Your task to perform on an android device: How much does a 3 bedroom apartment rent for in Washington DC? Image 0: 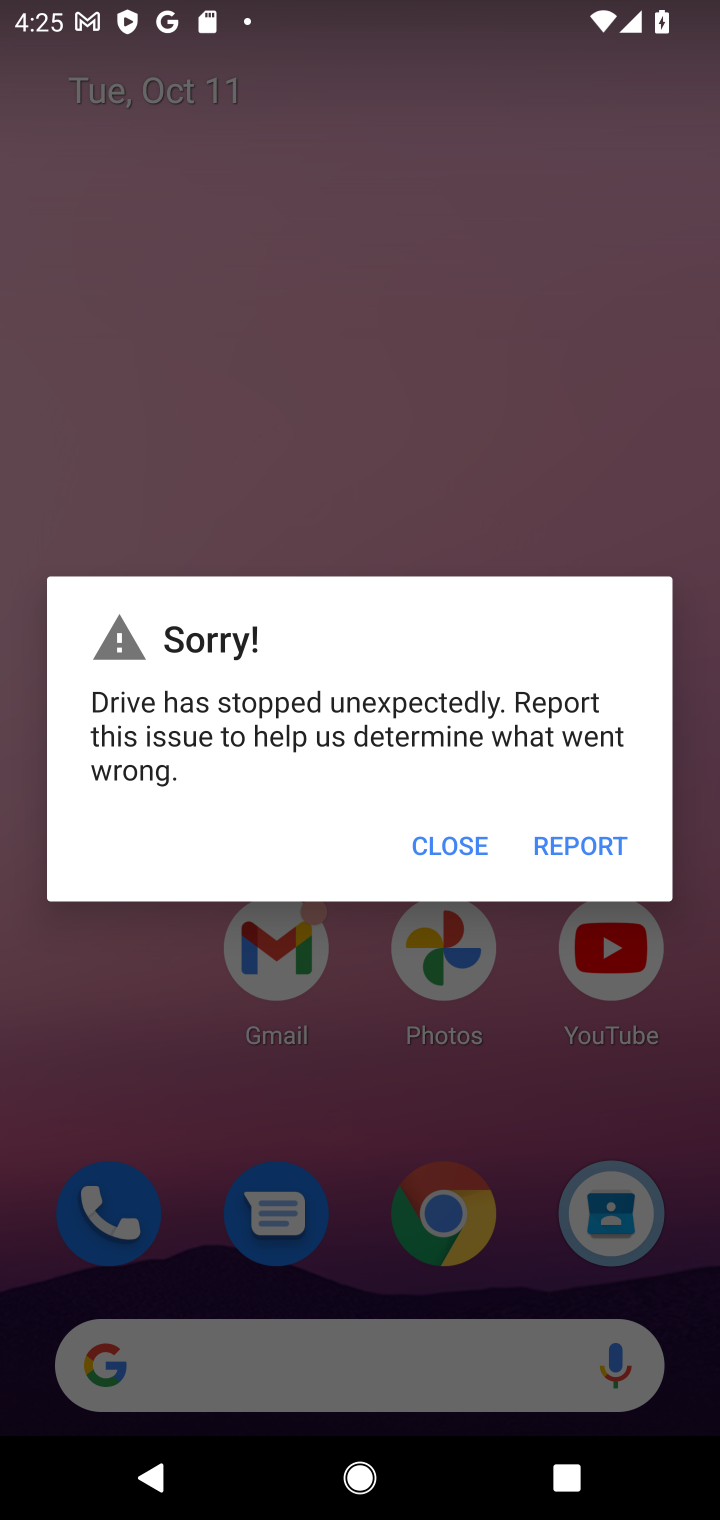
Step 0: press home button
Your task to perform on an android device: How much does a 3 bedroom apartment rent for in Washington DC? Image 1: 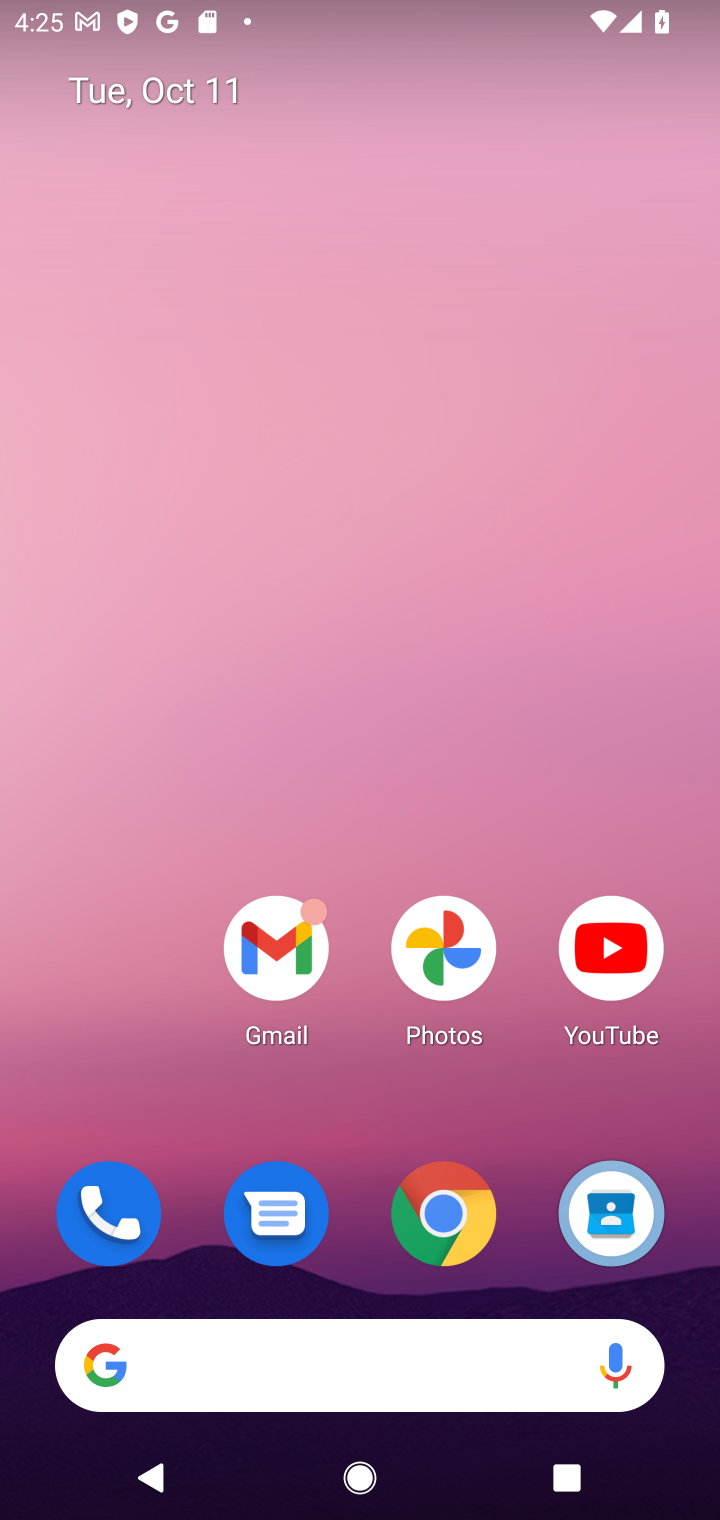
Step 1: click (441, 1221)
Your task to perform on an android device: How much does a 3 bedroom apartment rent for in Washington DC? Image 2: 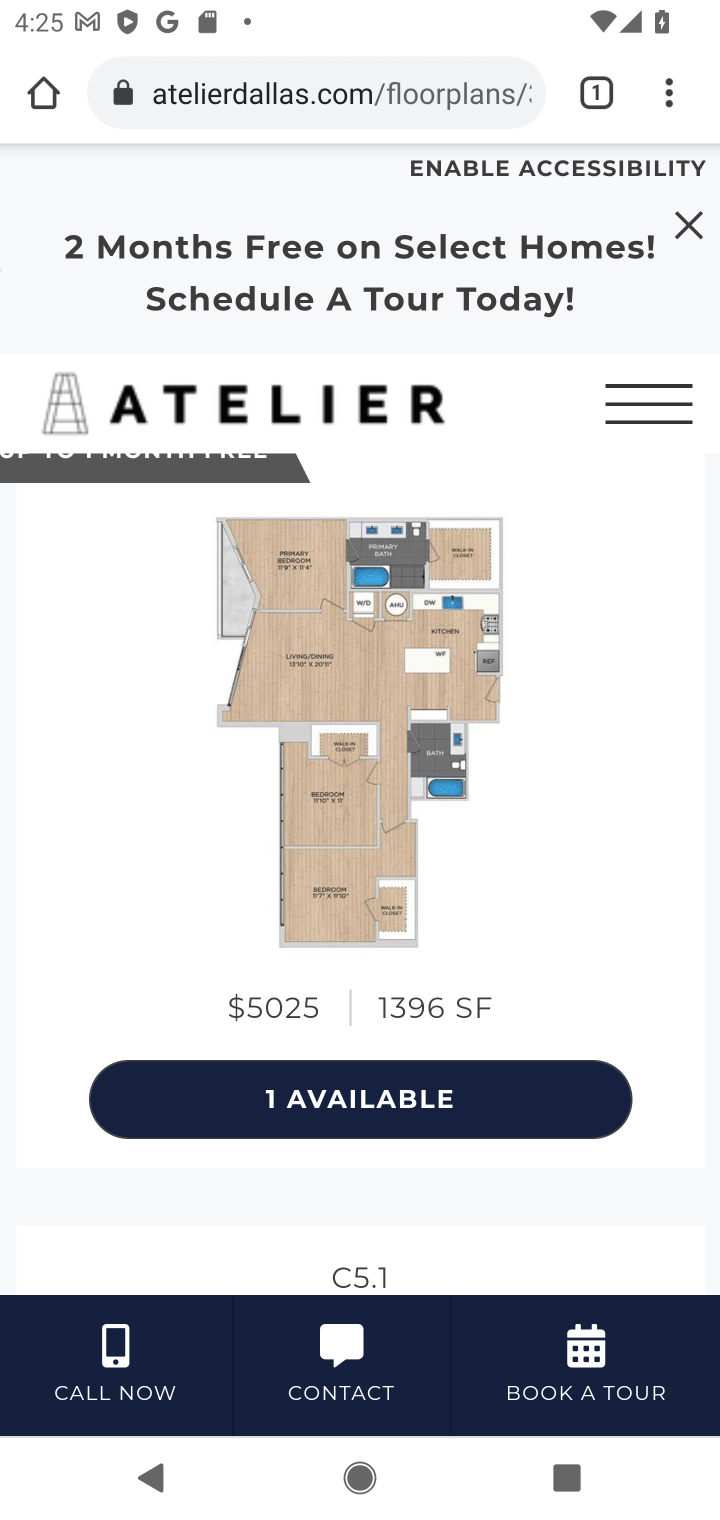
Step 2: click (313, 93)
Your task to perform on an android device: How much does a 3 bedroom apartment rent for in Washington DC? Image 3: 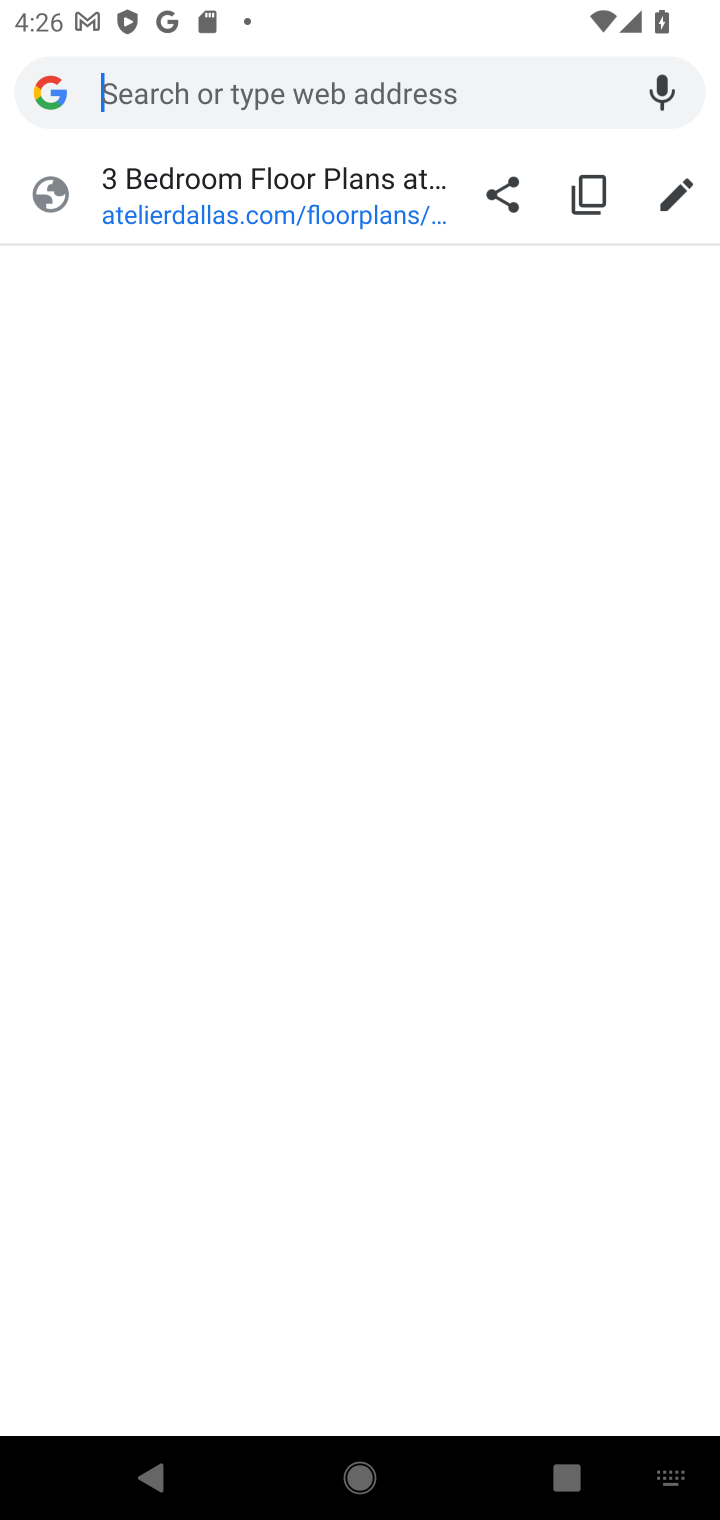
Step 3: type "rent for 3 bedroom apartment in washington dc"
Your task to perform on an android device: How much does a 3 bedroom apartment rent for in Washington DC? Image 4: 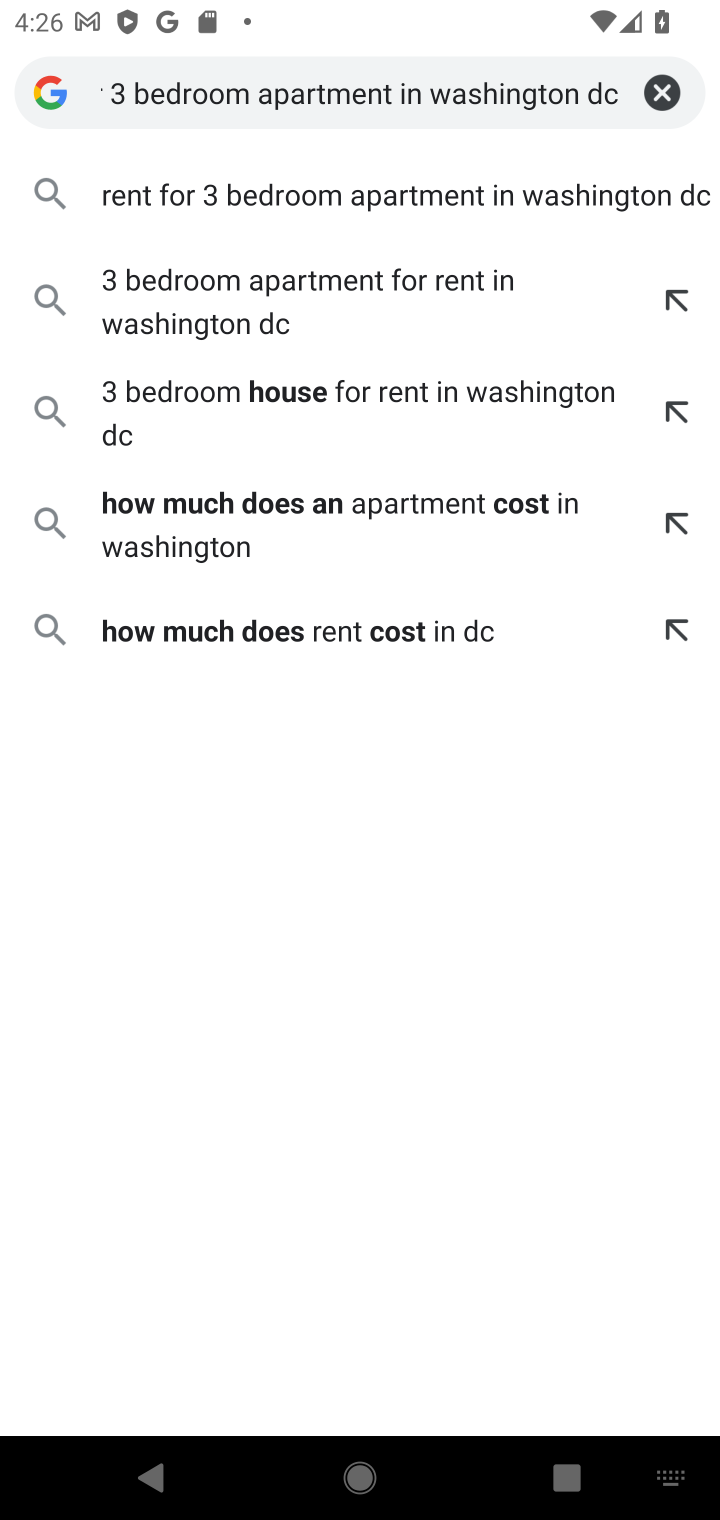
Step 4: click (239, 209)
Your task to perform on an android device: How much does a 3 bedroom apartment rent for in Washington DC? Image 5: 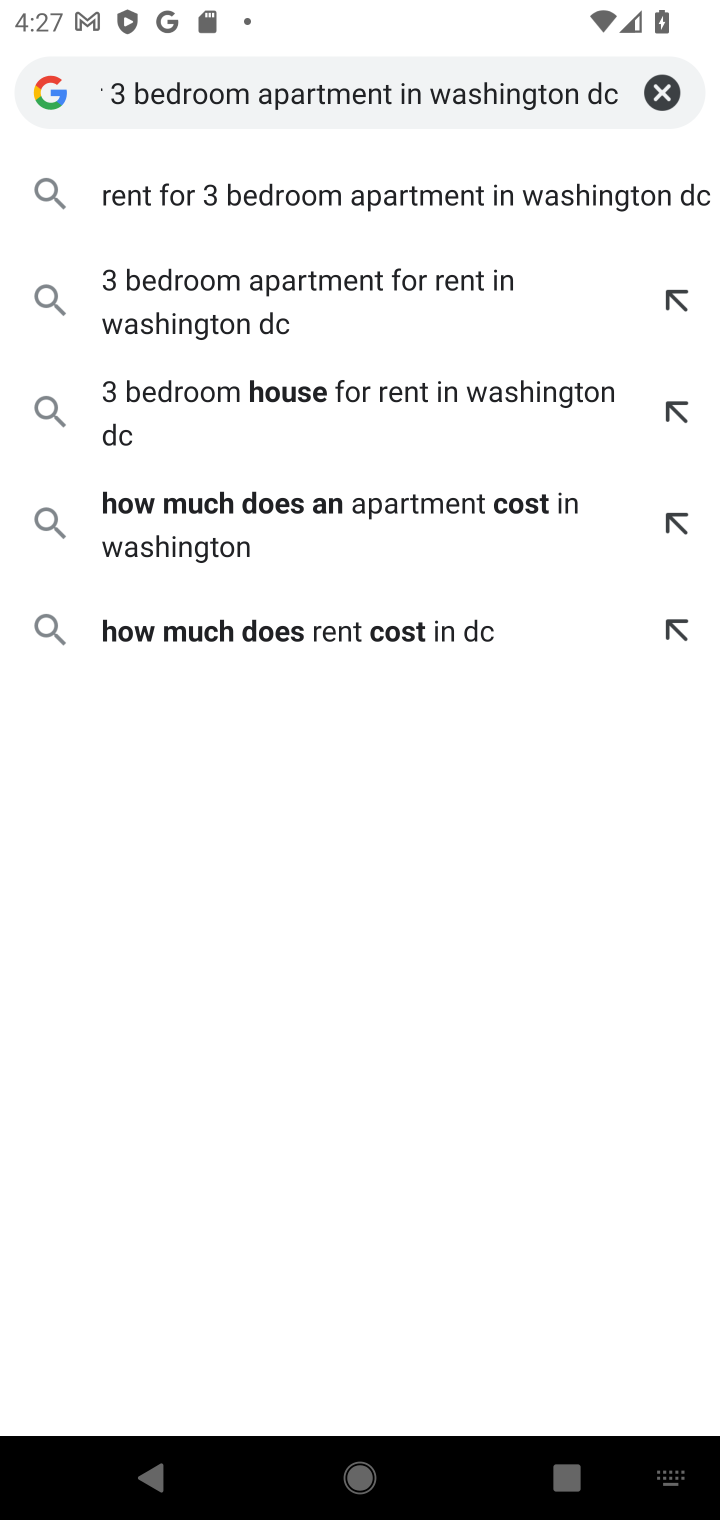
Step 5: click (338, 206)
Your task to perform on an android device: How much does a 3 bedroom apartment rent for in Washington DC? Image 6: 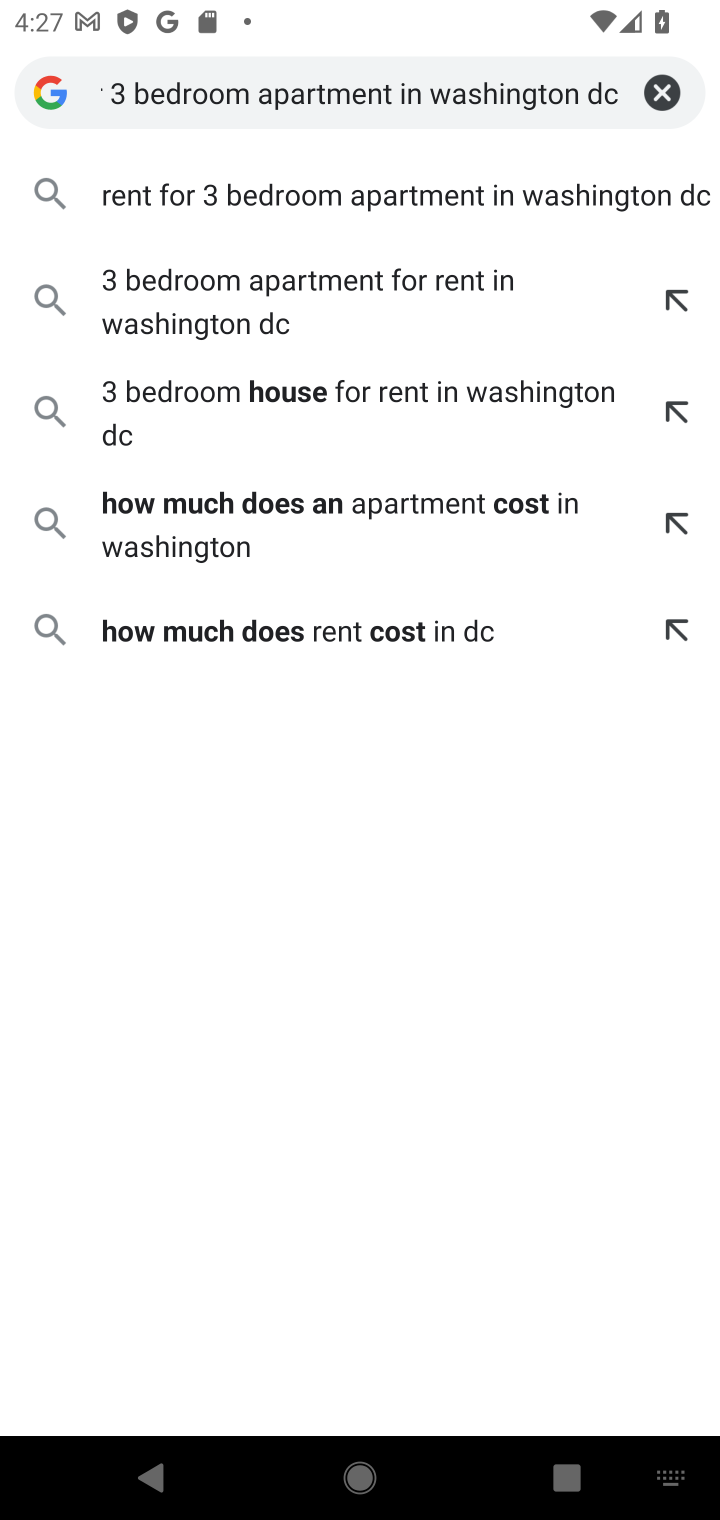
Step 6: click (179, 189)
Your task to perform on an android device: How much does a 3 bedroom apartment rent for in Washington DC? Image 7: 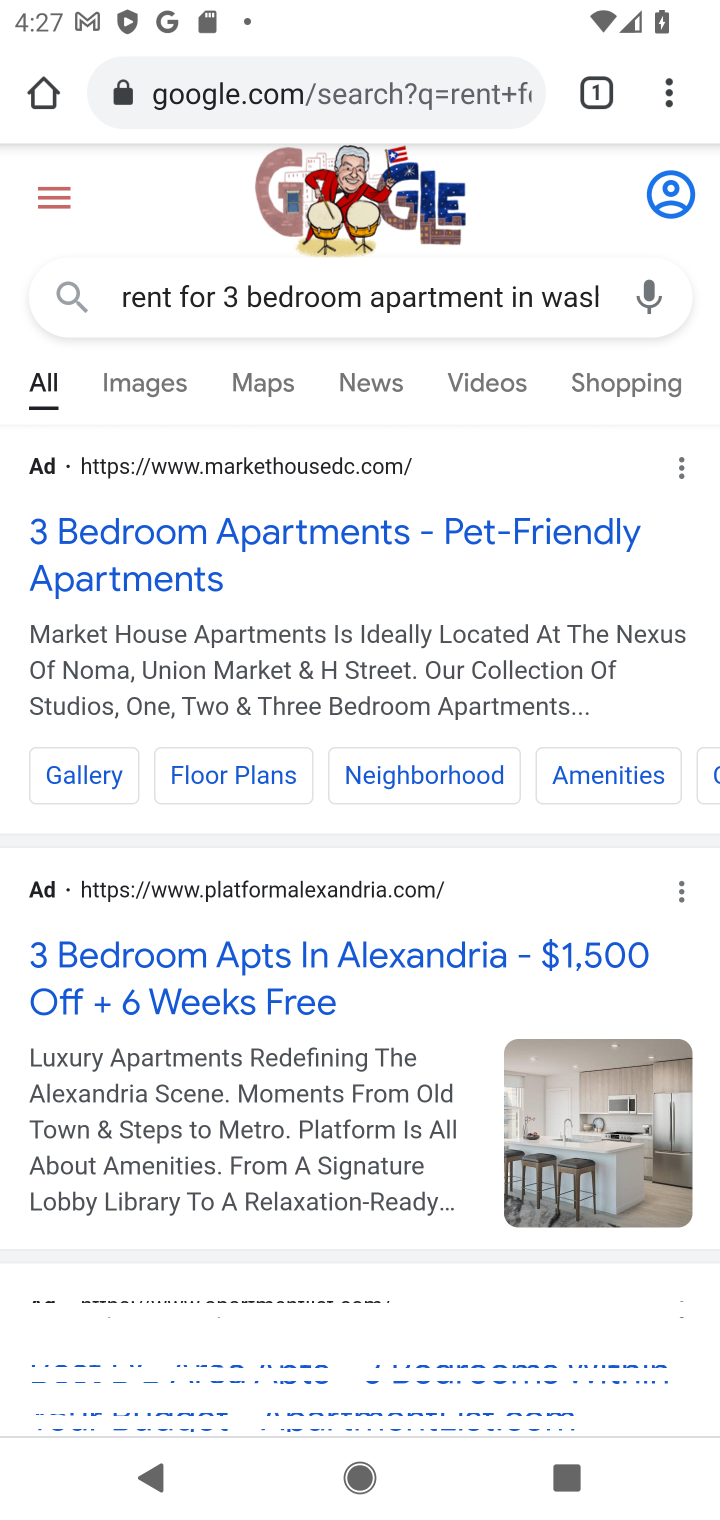
Step 7: click (151, 550)
Your task to perform on an android device: How much does a 3 bedroom apartment rent for in Washington DC? Image 8: 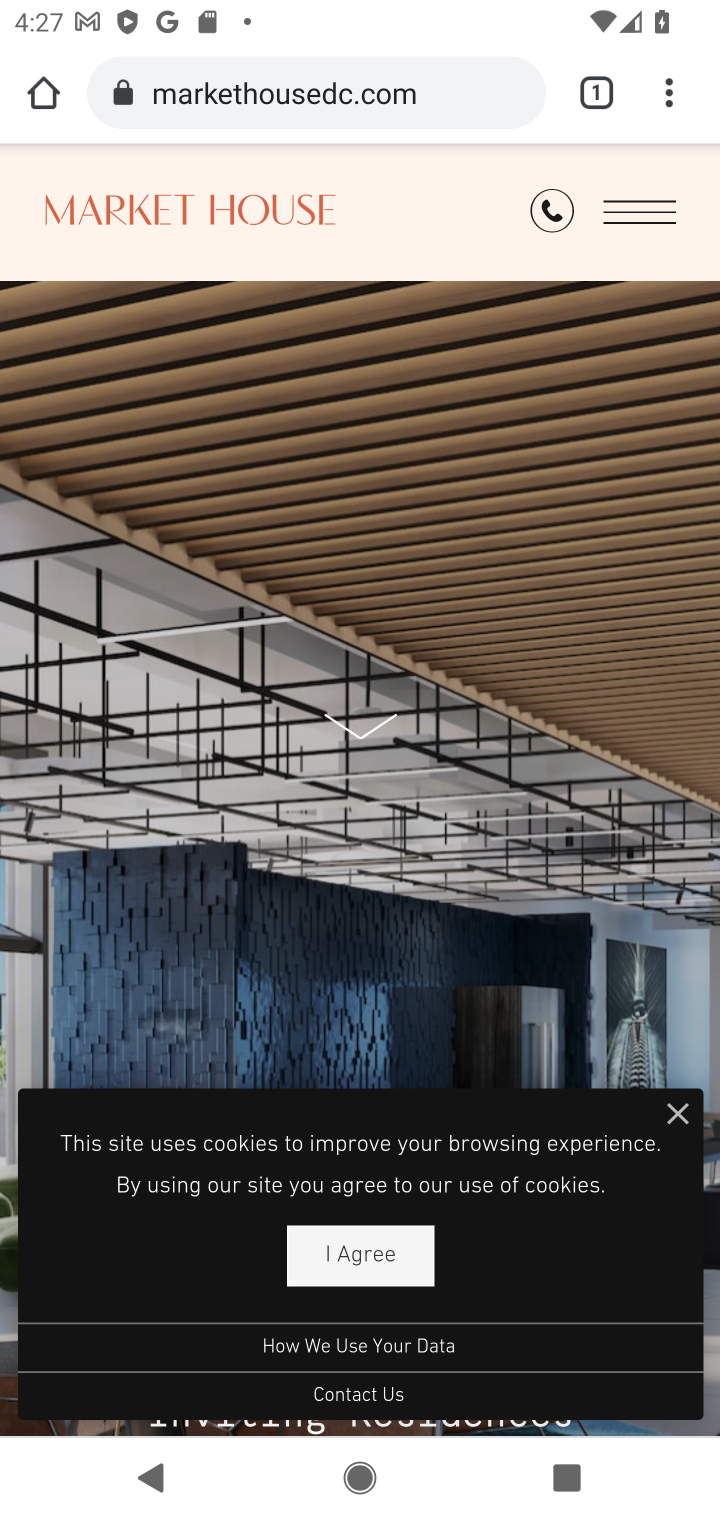
Step 8: click (680, 1108)
Your task to perform on an android device: How much does a 3 bedroom apartment rent for in Washington DC? Image 9: 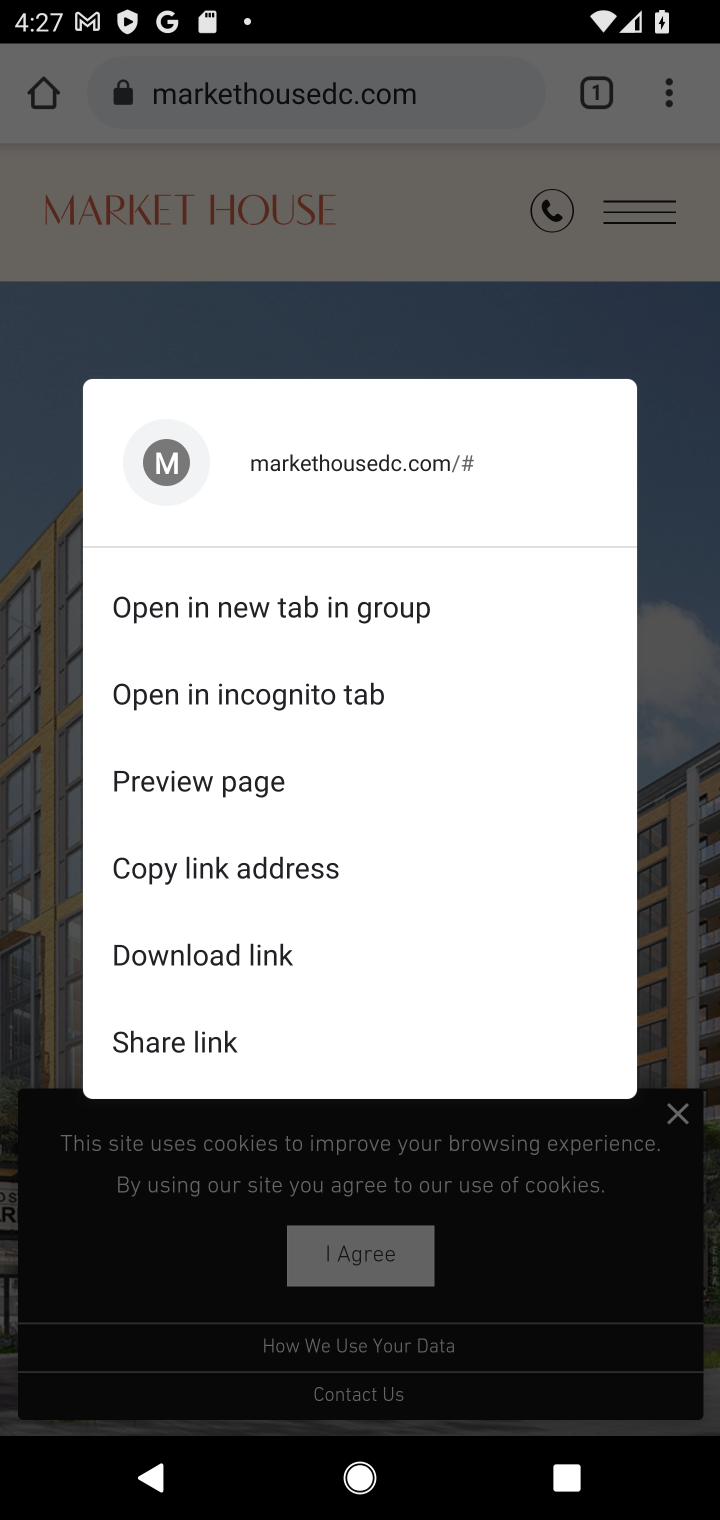
Step 9: click (688, 779)
Your task to perform on an android device: How much does a 3 bedroom apartment rent for in Washington DC? Image 10: 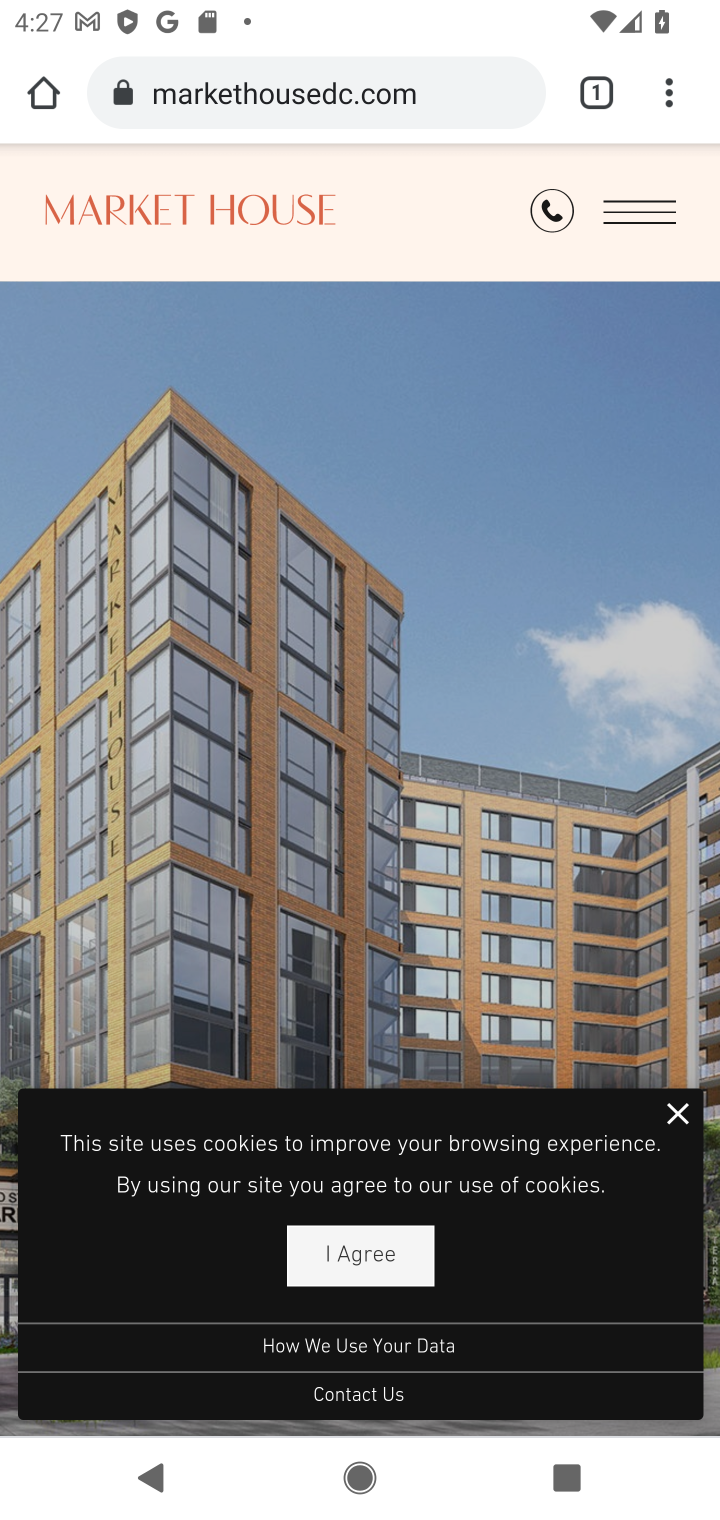
Step 10: drag from (449, 789) to (467, 198)
Your task to perform on an android device: How much does a 3 bedroom apartment rent for in Washington DC? Image 11: 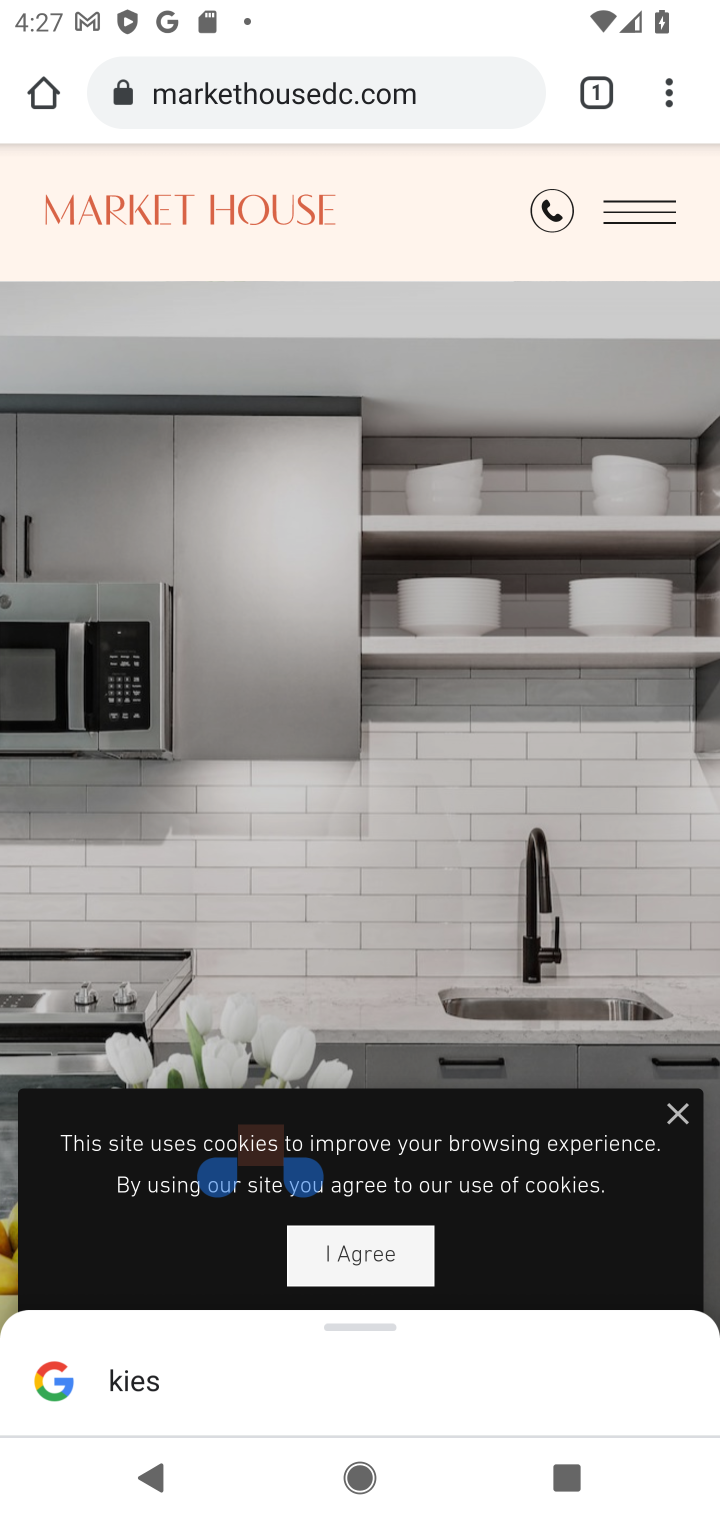
Step 11: drag from (395, 949) to (422, 269)
Your task to perform on an android device: How much does a 3 bedroom apartment rent for in Washington DC? Image 12: 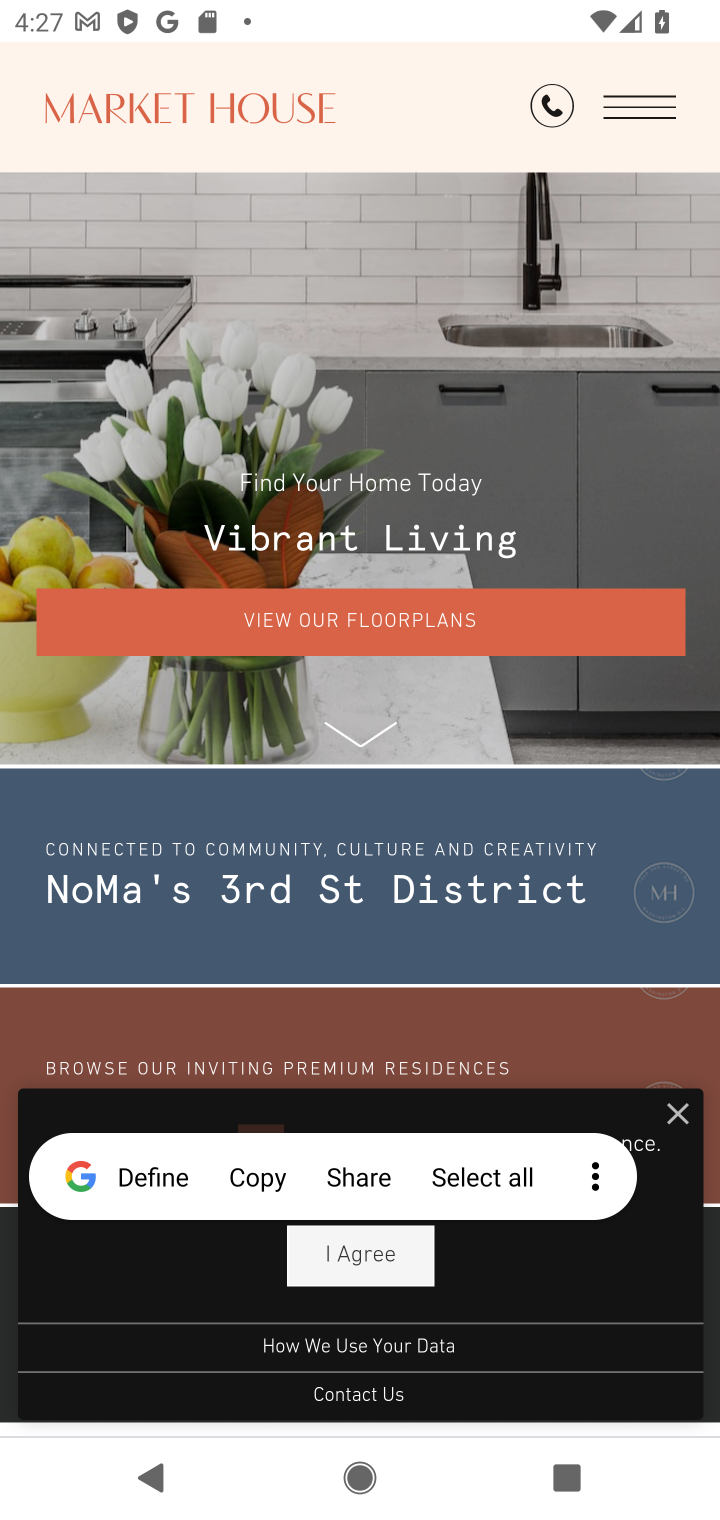
Step 12: drag from (332, 671) to (365, 332)
Your task to perform on an android device: How much does a 3 bedroom apartment rent for in Washington DC? Image 13: 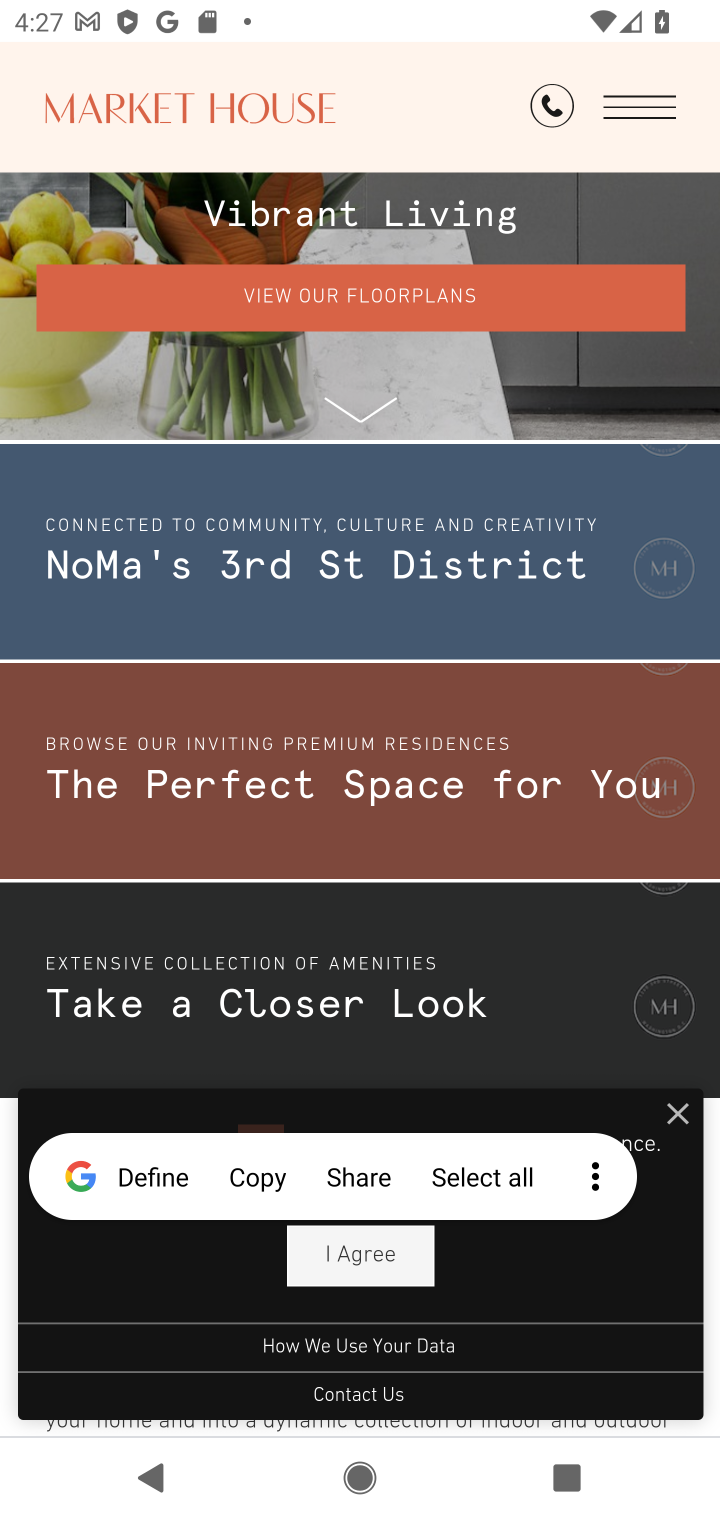
Step 13: drag from (361, 762) to (368, 261)
Your task to perform on an android device: How much does a 3 bedroom apartment rent for in Washington DC? Image 14: 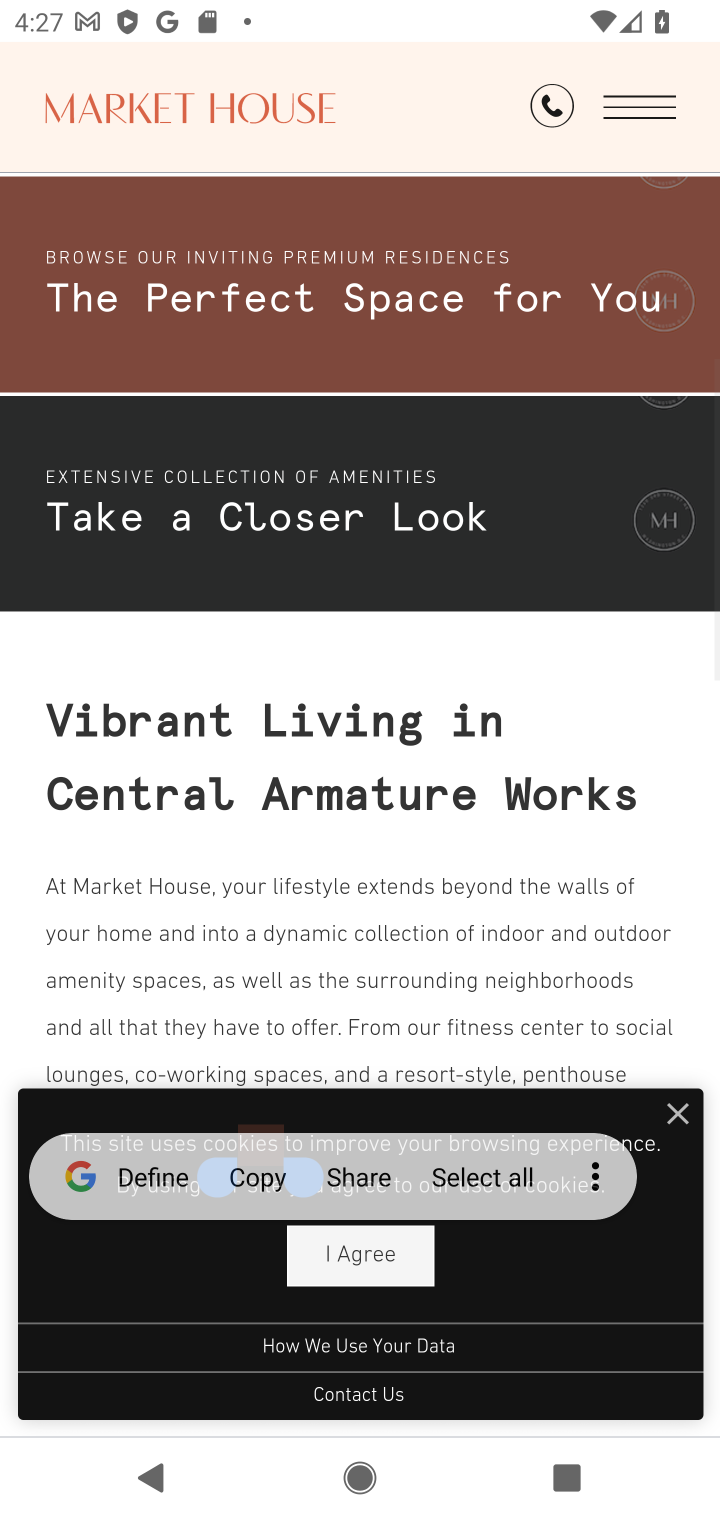
Step 14: drag from (290, 892) to (333, 282)
Your task to perform on an android device: How much does a 3 bedroom apartment rent for in Washington DC? Image 15: 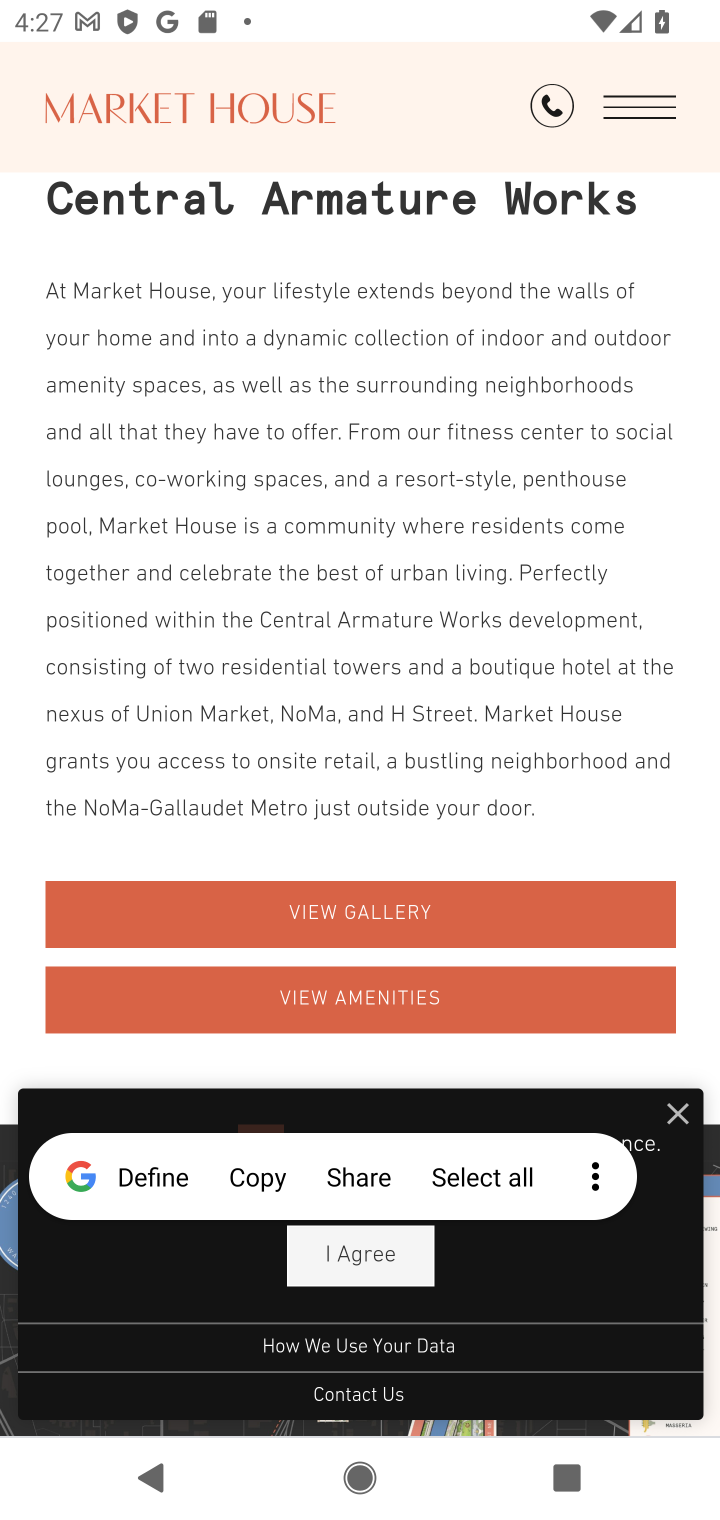
Step 15: drag from (297, 899) to (345, 362)
Your task to perform on an android device: How much does a 3 bedroom apartment rent for in Washington DC? Image 16: 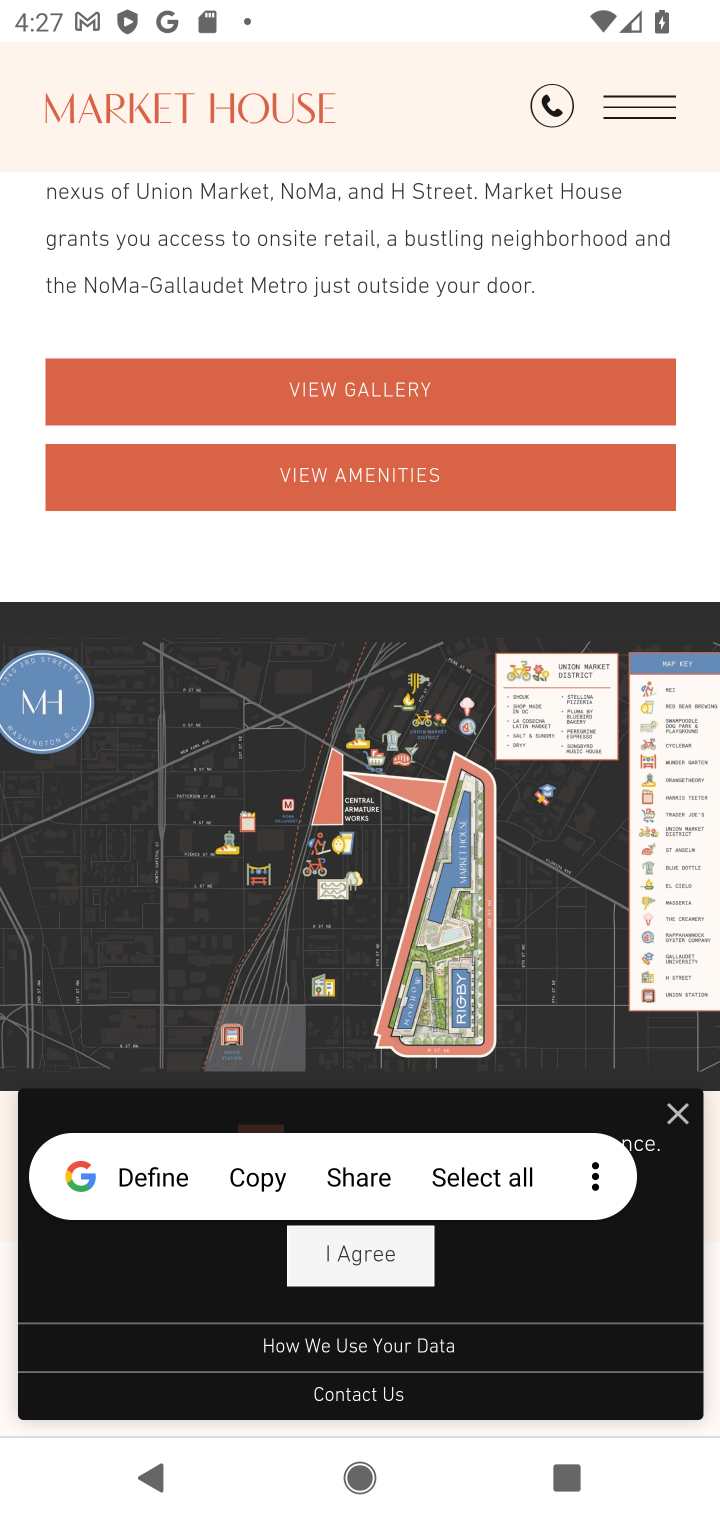
Step 16: drag from (266, 839) to (294, 352)
Your task to perform on an android device: How much does a 3 bedroom apartment rent for in Washington DC? Image 17: 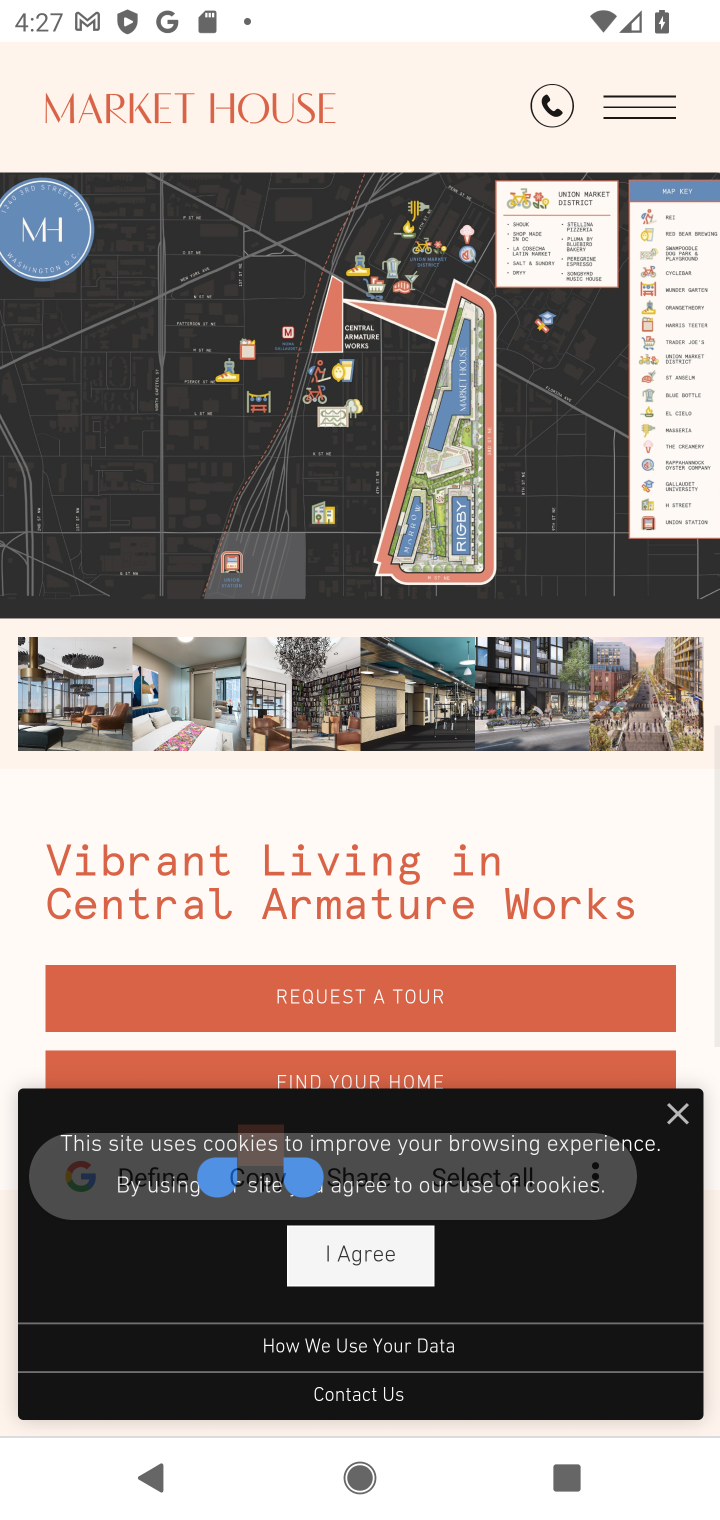
Step 17: drag from (319, 845) to (373, 370)
Your task to perform on an android device: How much does a 3 bedroom apartment rent for in Washington DC? Image 18: 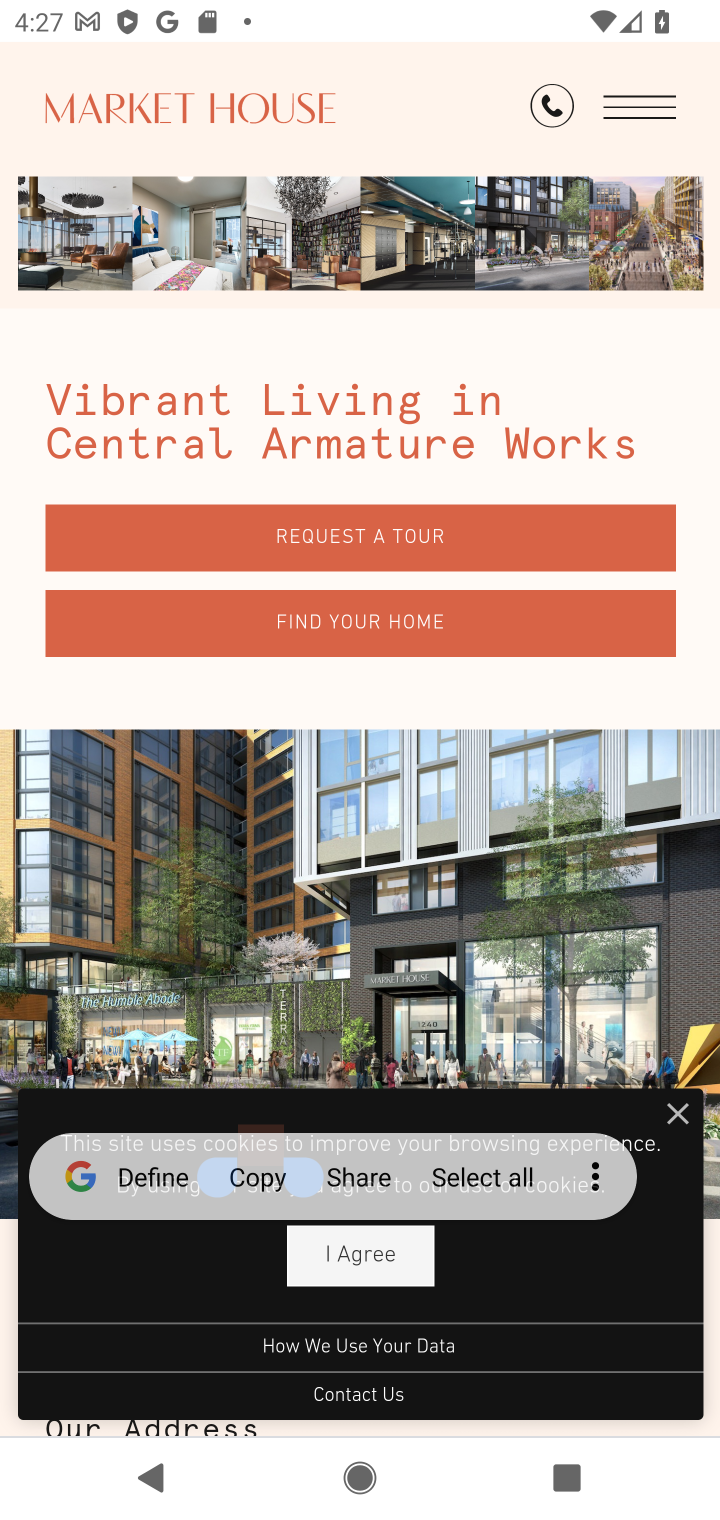
Step 18: drag from (324, 830) to (354, 383)
Your task to perform on an android device: How much does a 3 bedroom apartment rent for in Washington DC? Image 19: 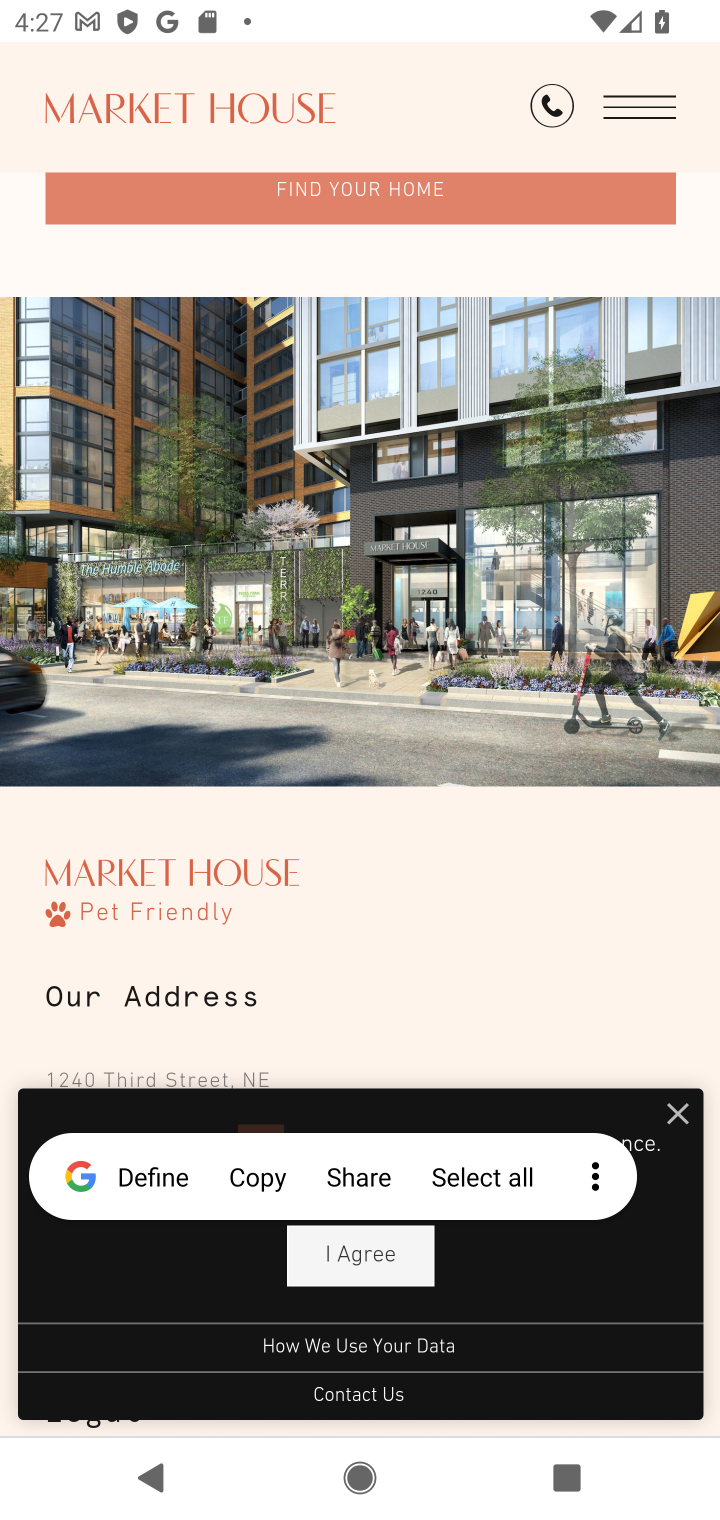
Step 19: drag from (326, 764) to (355, 432)
Your task to perform on an android device: How much does a 3 bedroom apartment rent for in Washington DC? Image 20: 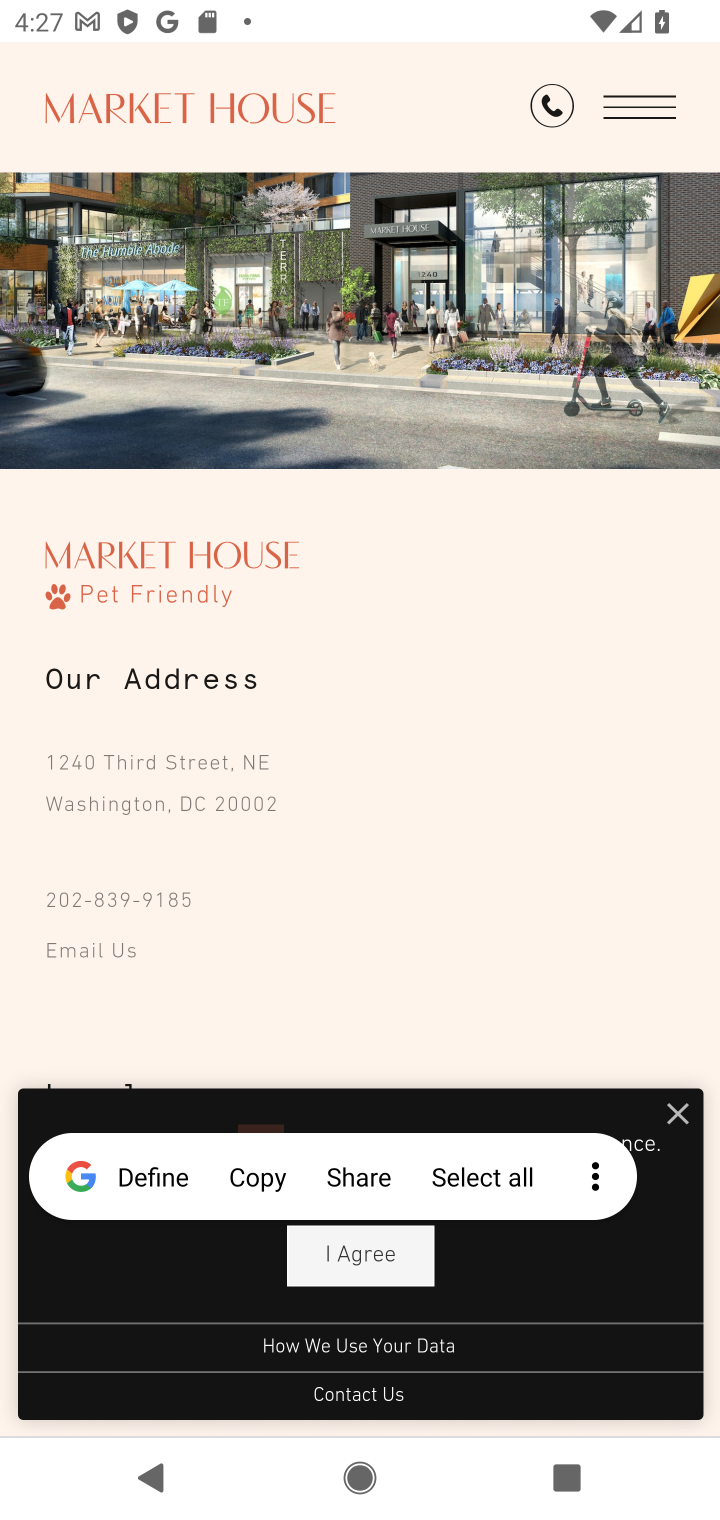
Step 20: press back button
Your task to perform on an android device: How much does a 3 bedroom apartment rent for in Washington DC? Image 21: 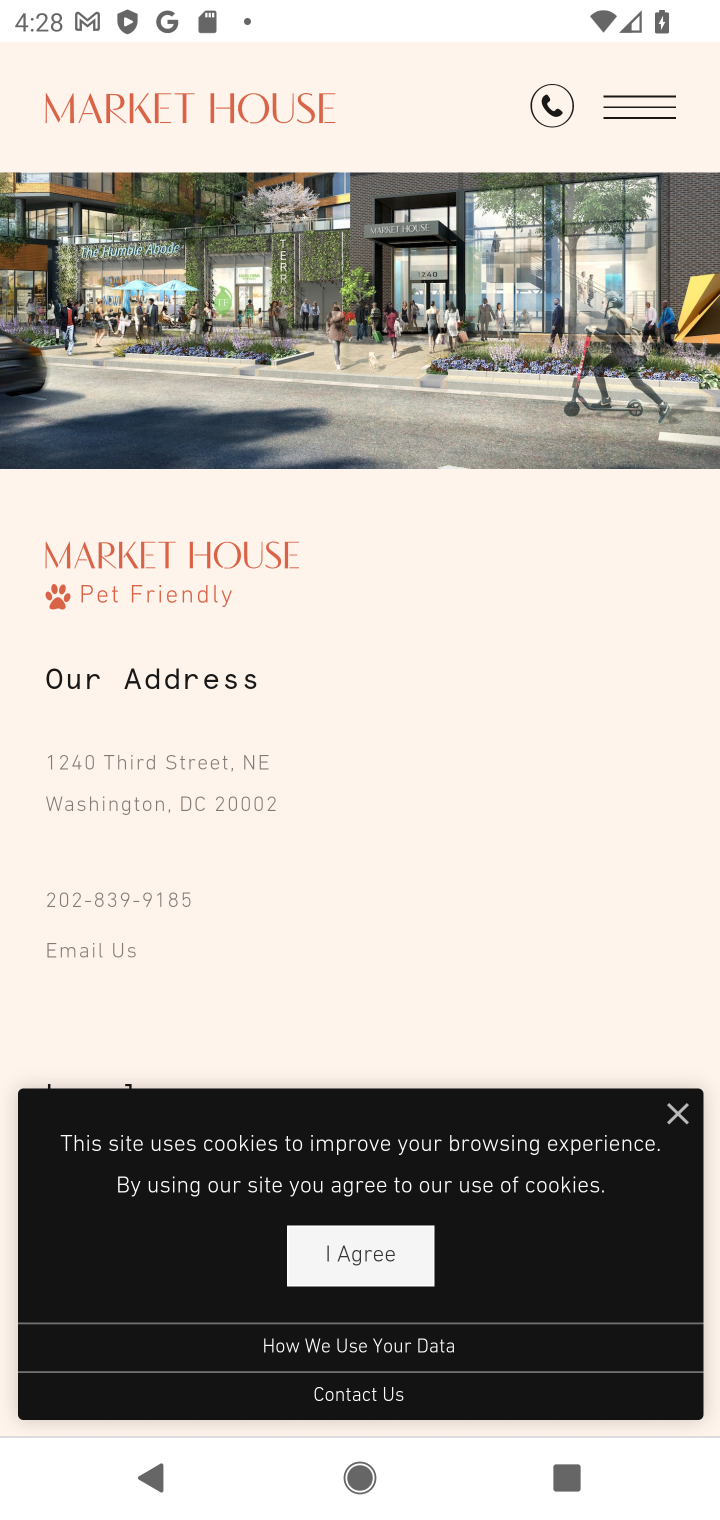
Step 21: drag from (465, 782) to (504, 464)
Your task to perform on an android device: How much does a 3 bedroom apartment rent for in Washington DC? Image 22: 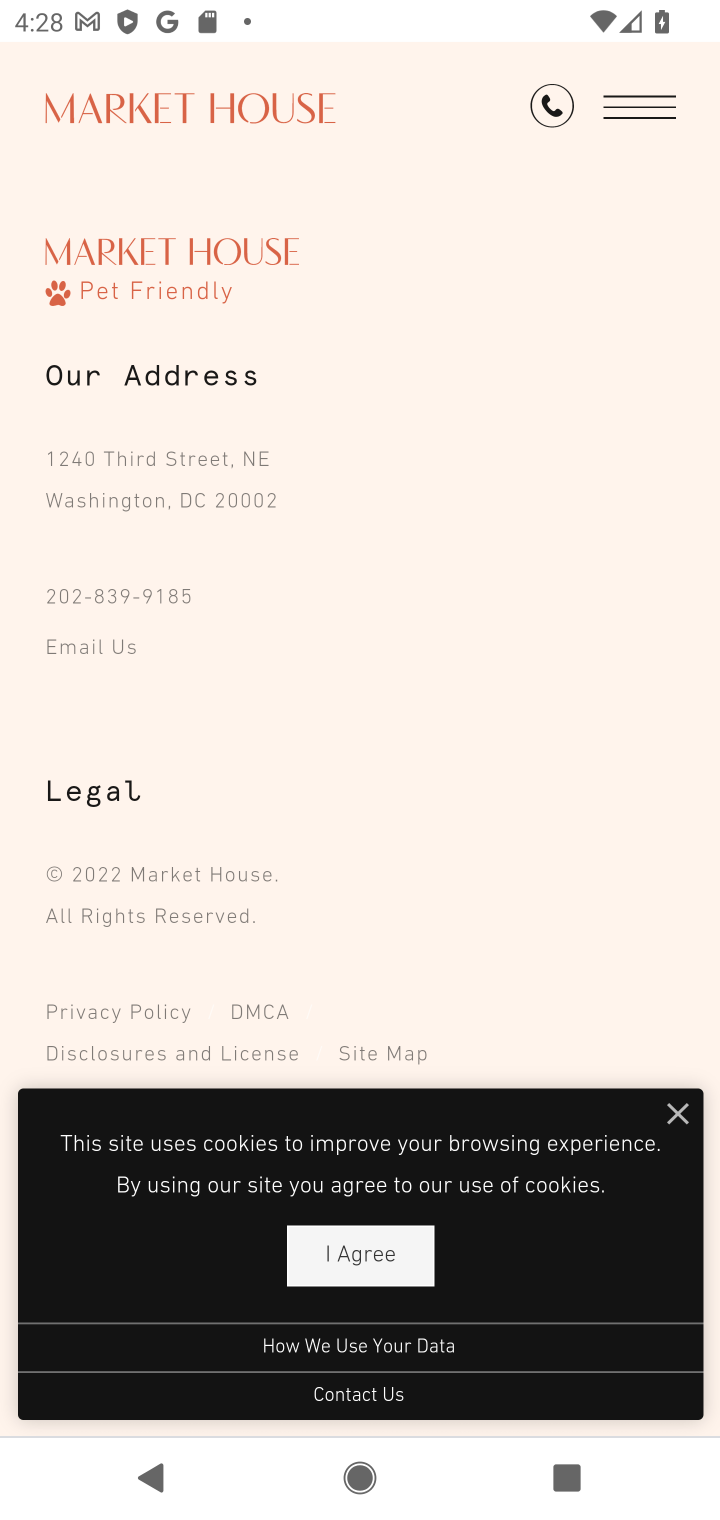
Step 22: press back button
Your task to perform on an android device: How much does a 3 bedroom apartment rent for in Washington DC? Image 23: 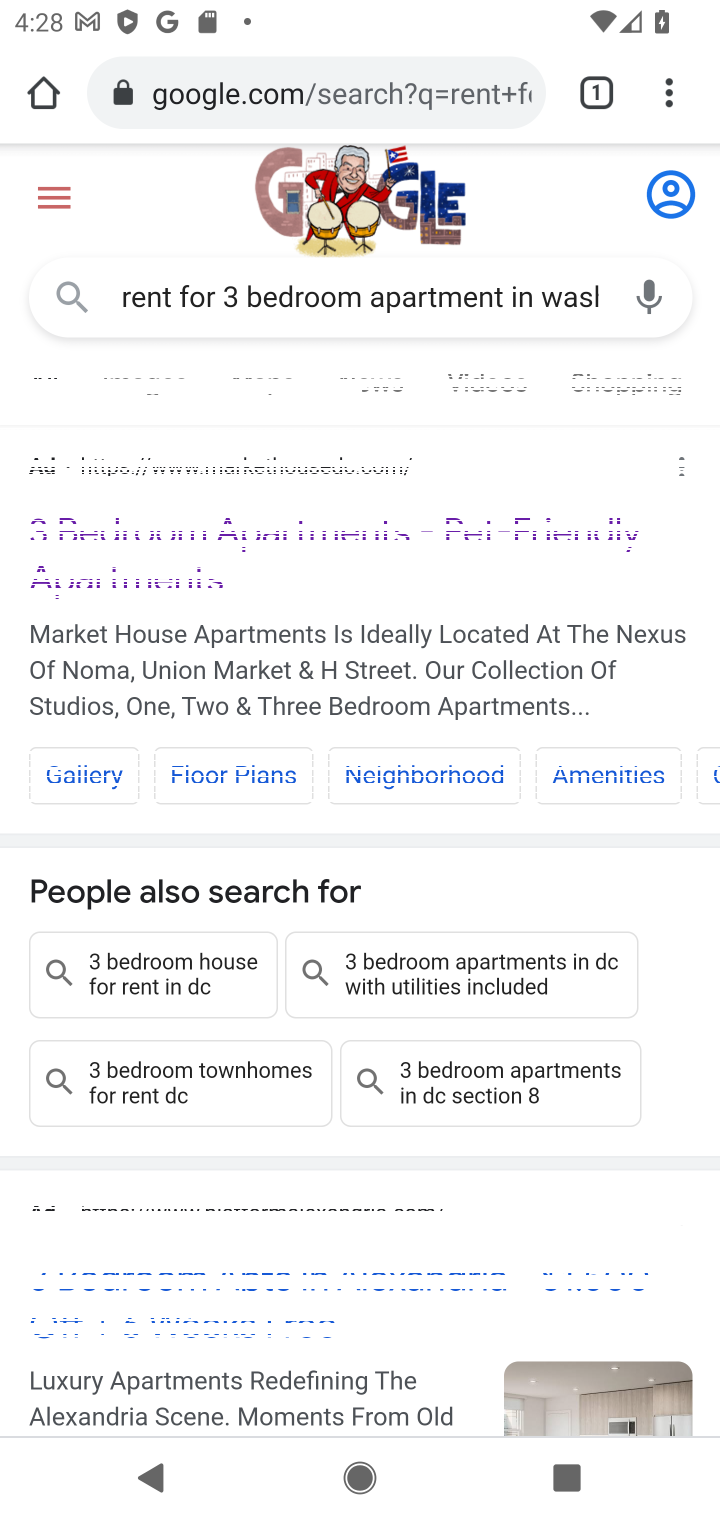
Step 23: drag from (340, 1021) to (357, 602)
Your task to perform on an android device: How much does a 3 bedroom apartment rent for in Washington DC? Image 24: 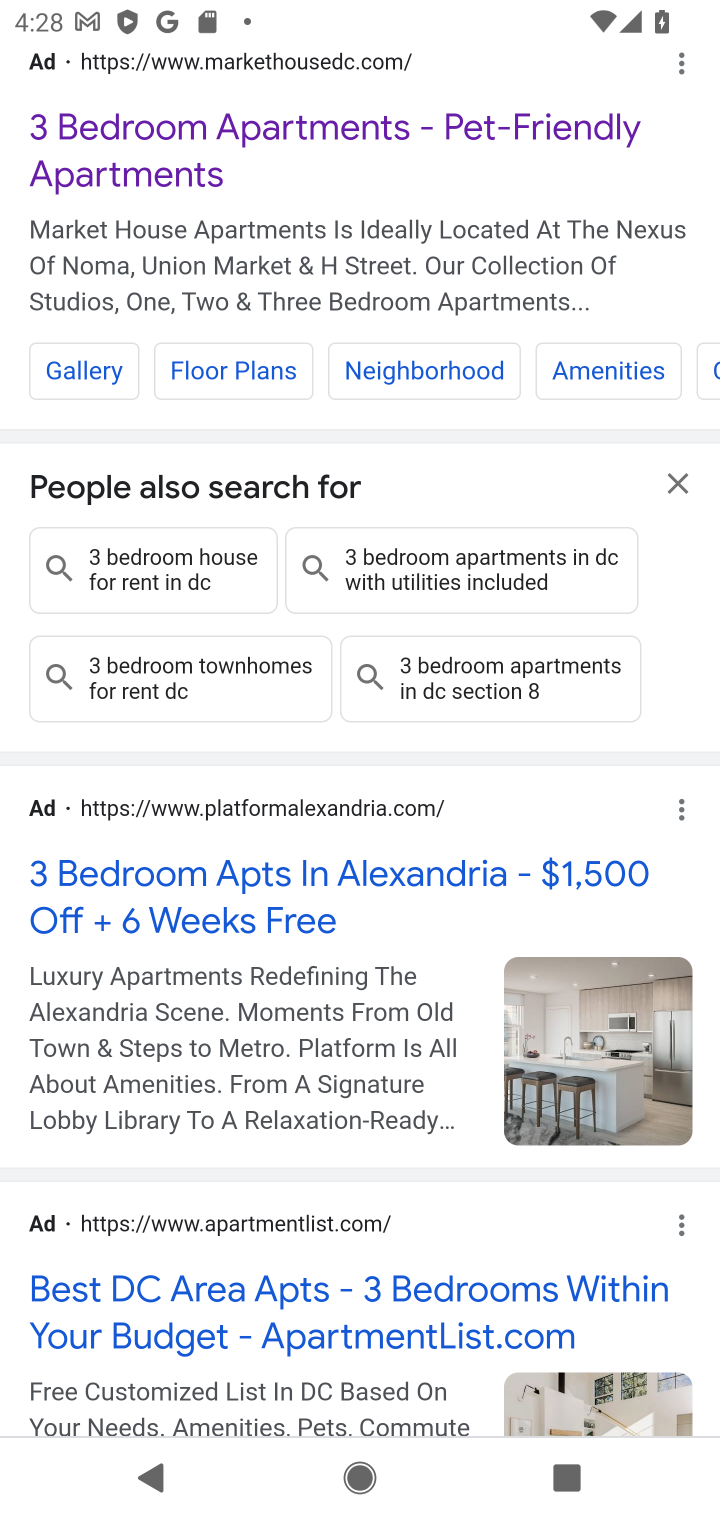
Step 24: click (171, 909)
Your task to perform on an android device: How much does a 3 bedroom apartment rent for in Washington DC? Image 25: 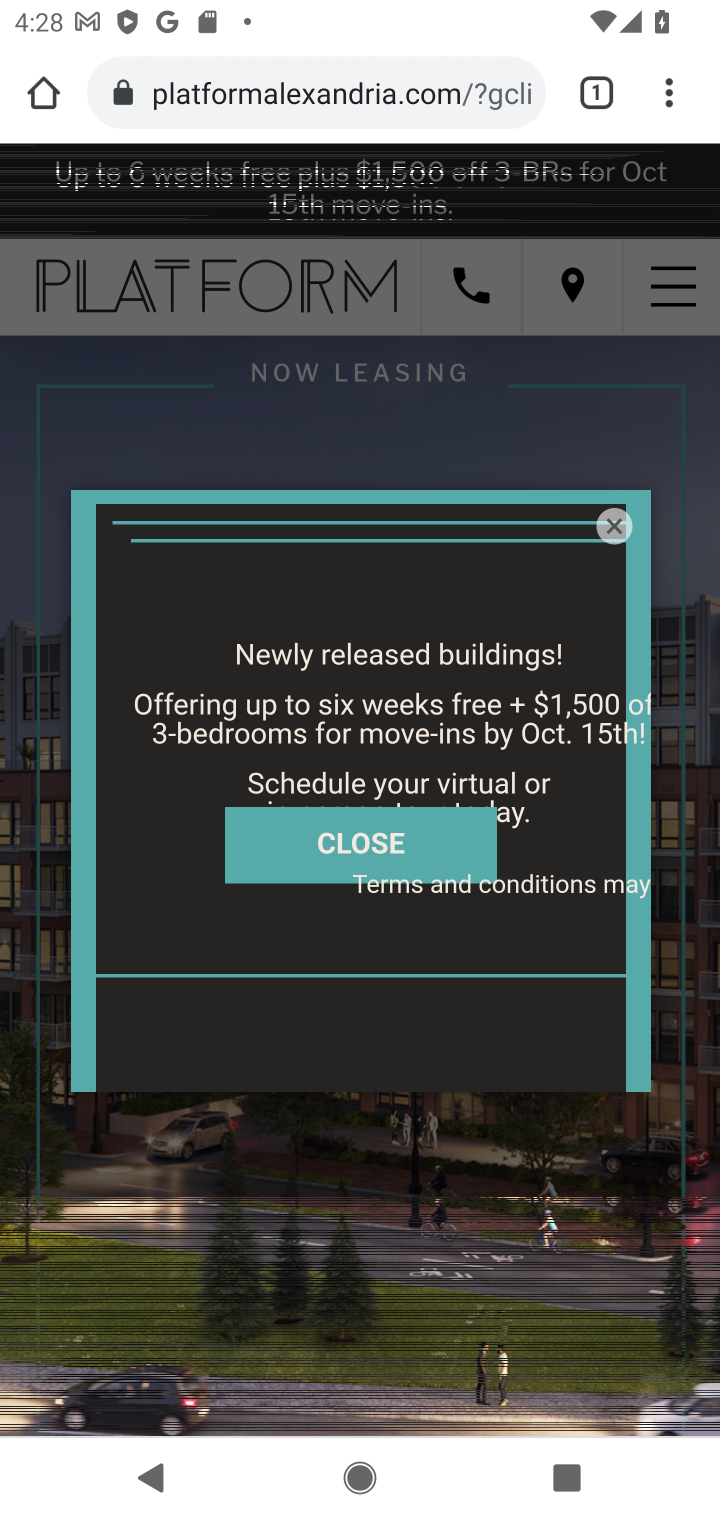
Step 25: click (623, 533)
Your task to perform on an android device: How much does a 3 bedroom apartment rent for in Washington DC? Image 26: 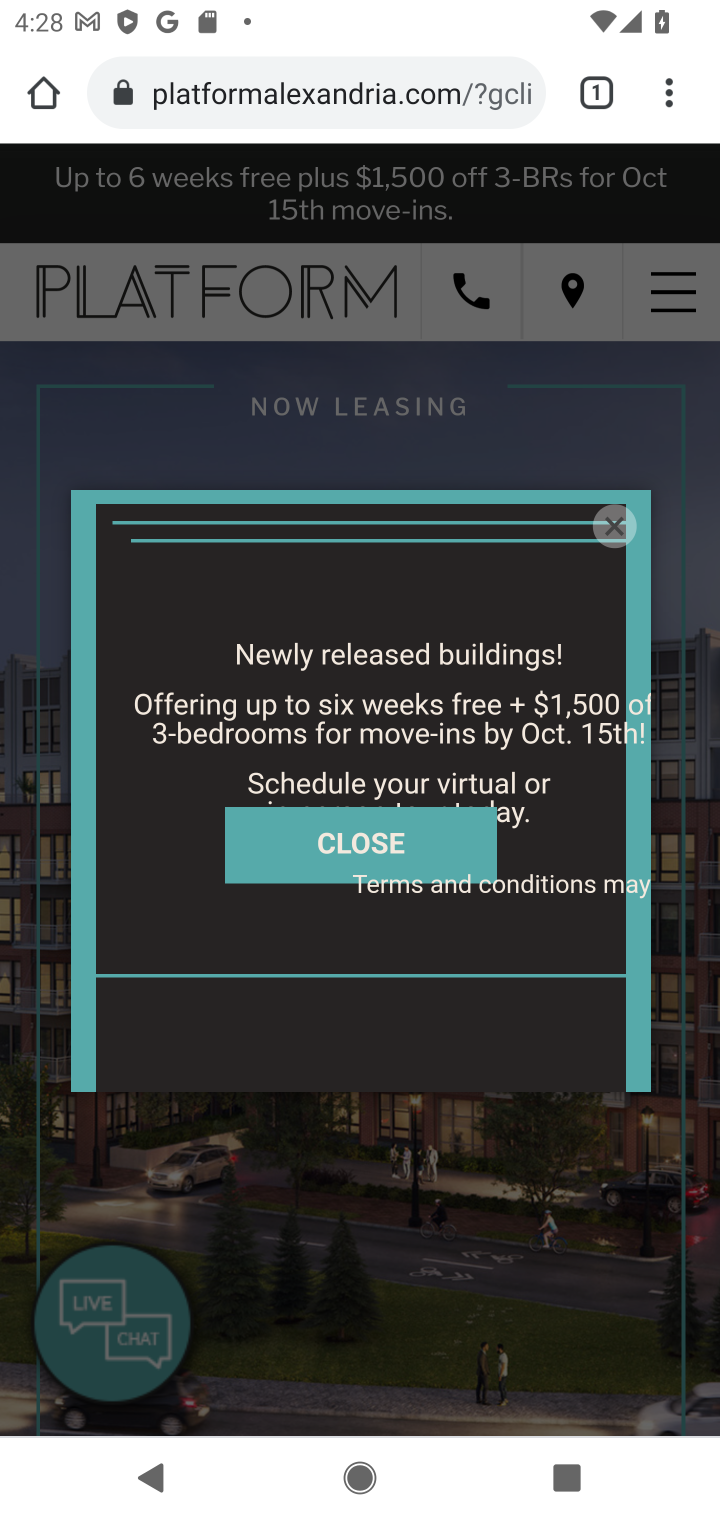
Step 26: drag from (666, 1062) to (684, 490)
Your task to perform on an android device: How much does a 3 bedroom apartment rent for in Washington DC? Image 27: 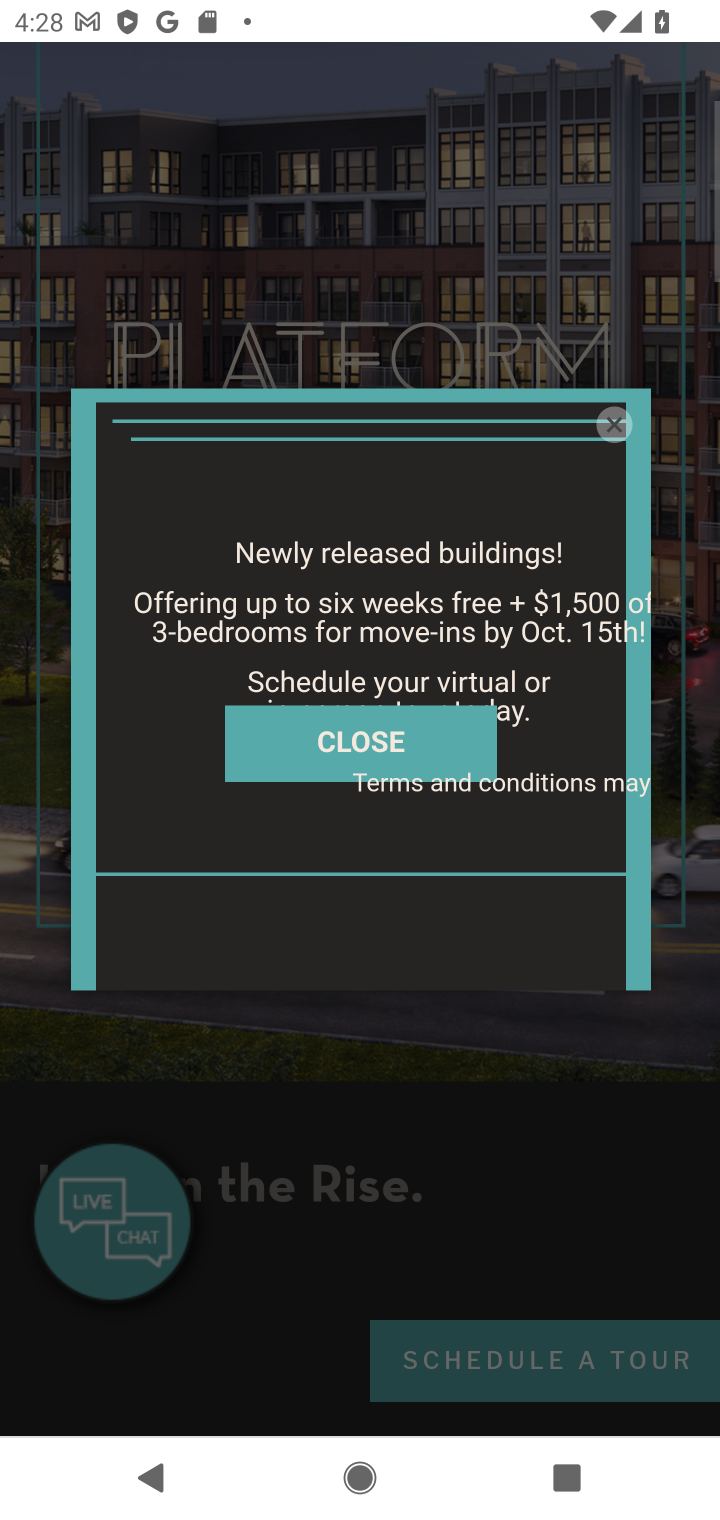
Step 27: drag from (449, 1087) to (483, 488)
Your task to perform on an android device: How much does a 3 bedroom apartment rent for in Washington DC? Image 28: 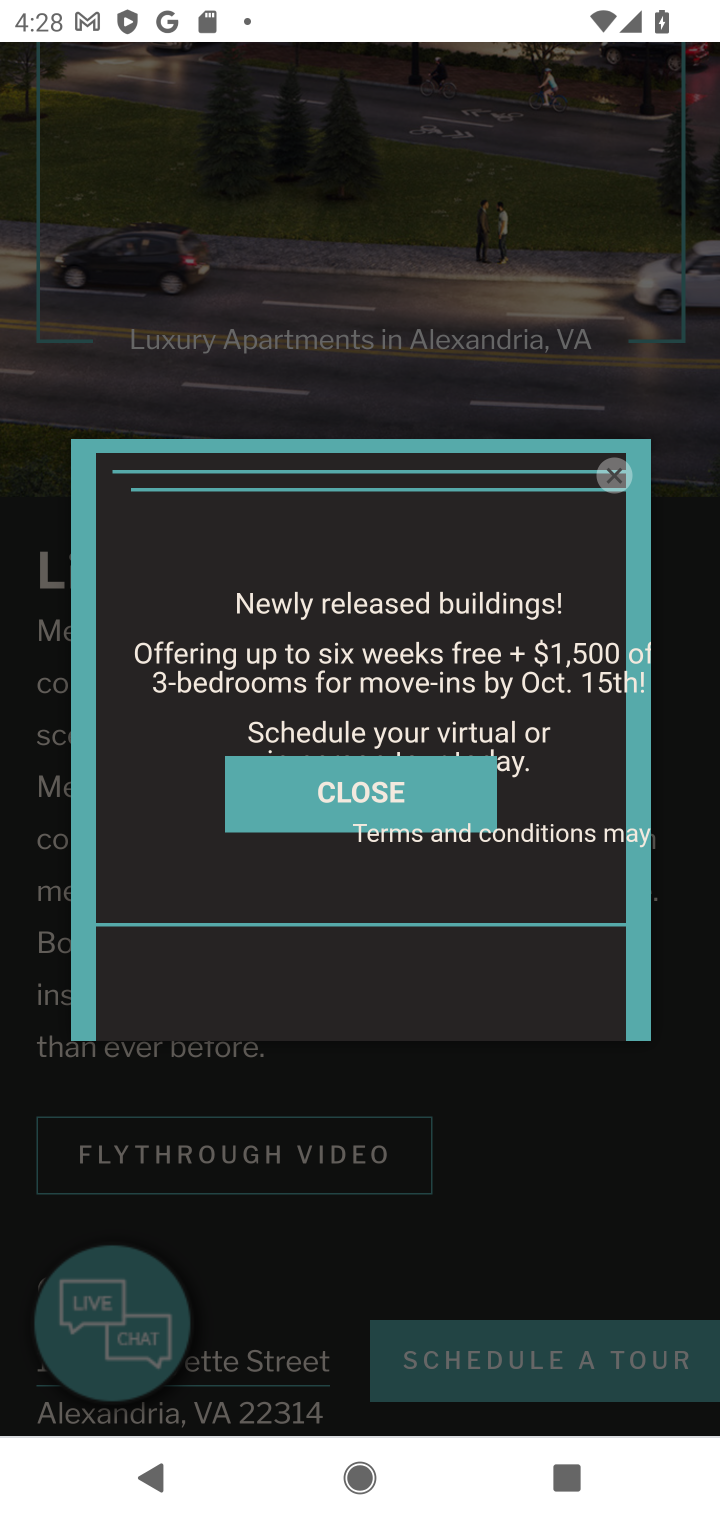
Step 28: drag from (487, 841) to (491, 347)
Your task to perform on an android device: How much does a 3 bedroom apartment rent for in Washington DC? Image 29: 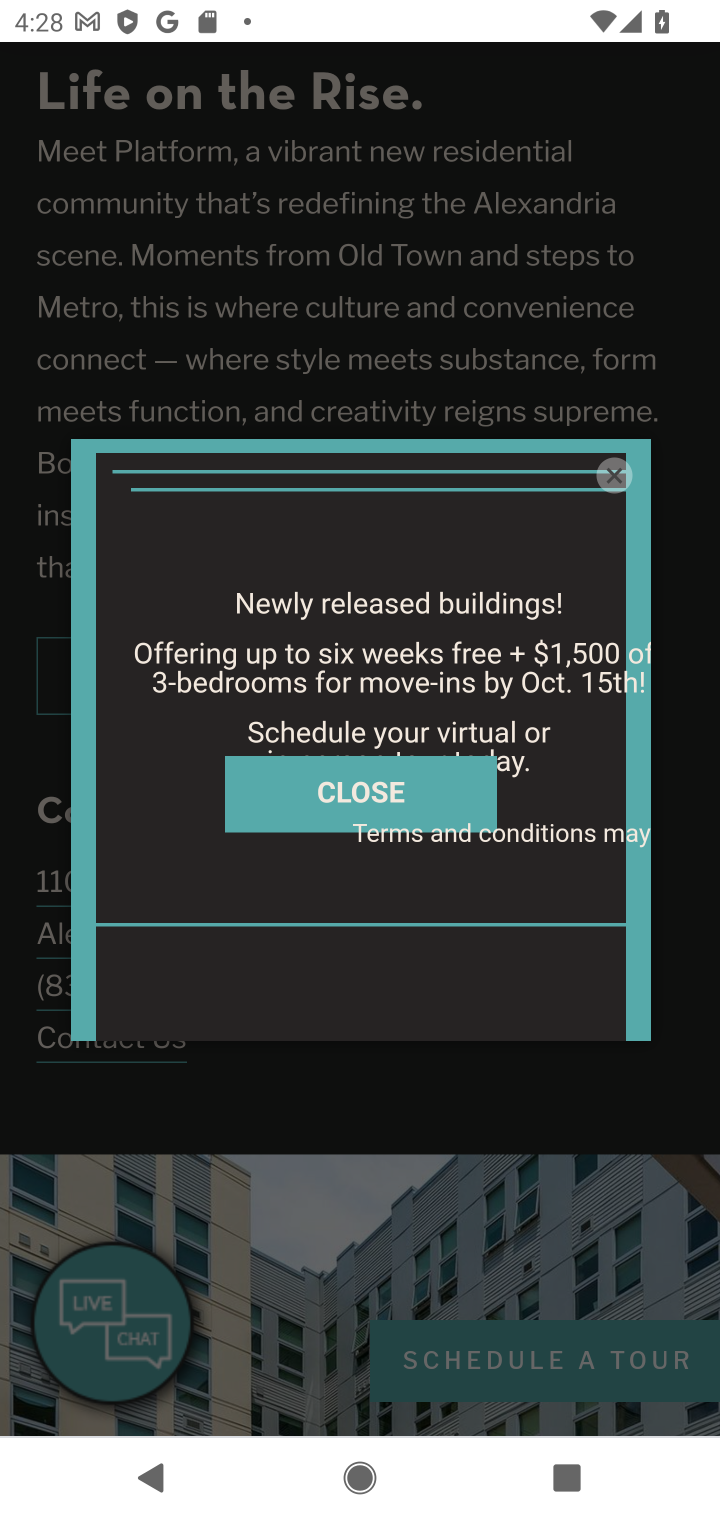
Step 29: click (617, 478)
Your task to perform on an android device: How much does a 3 bedroom apartment rent for in Washington DC? Image 30: 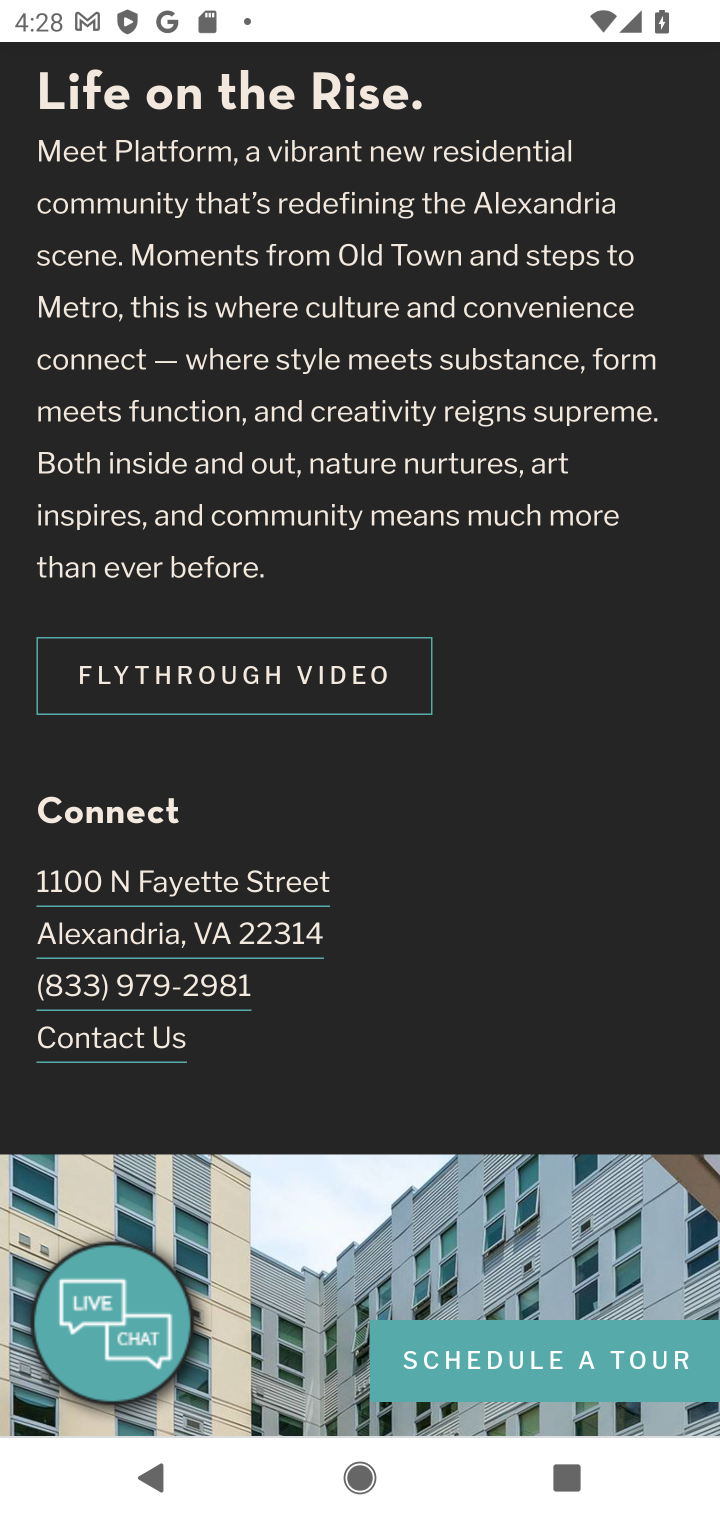
Step 30: drag from (354, 930) to (349, 235)
Your task to perform on an android device: How much does a 3 bedroom apartment rent for in Washington DC? Image 31: 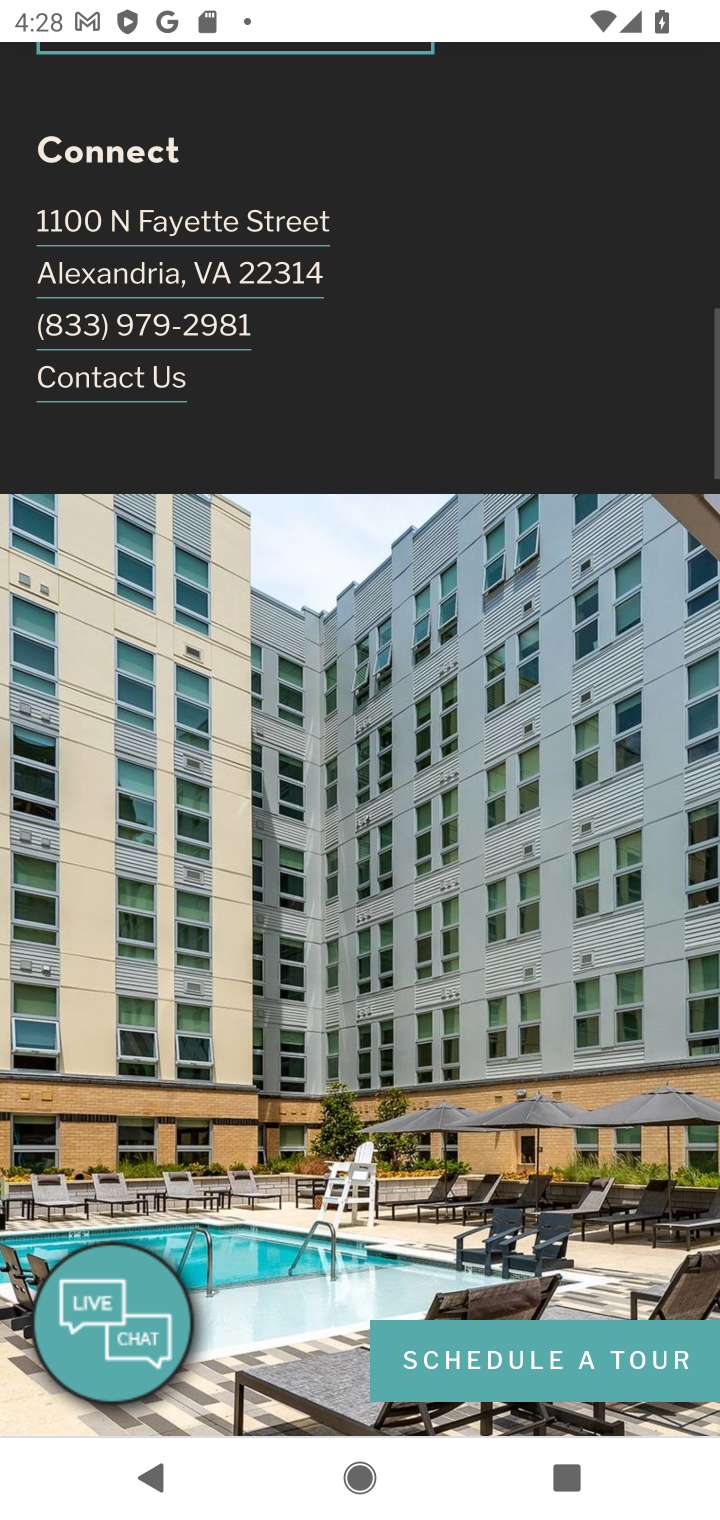
Step 31: drag from (297, 935) to (315, 273)
Your task to perform on an android device: How much does a 3 bedroom apartment rent for in Washington DC? Image 32: 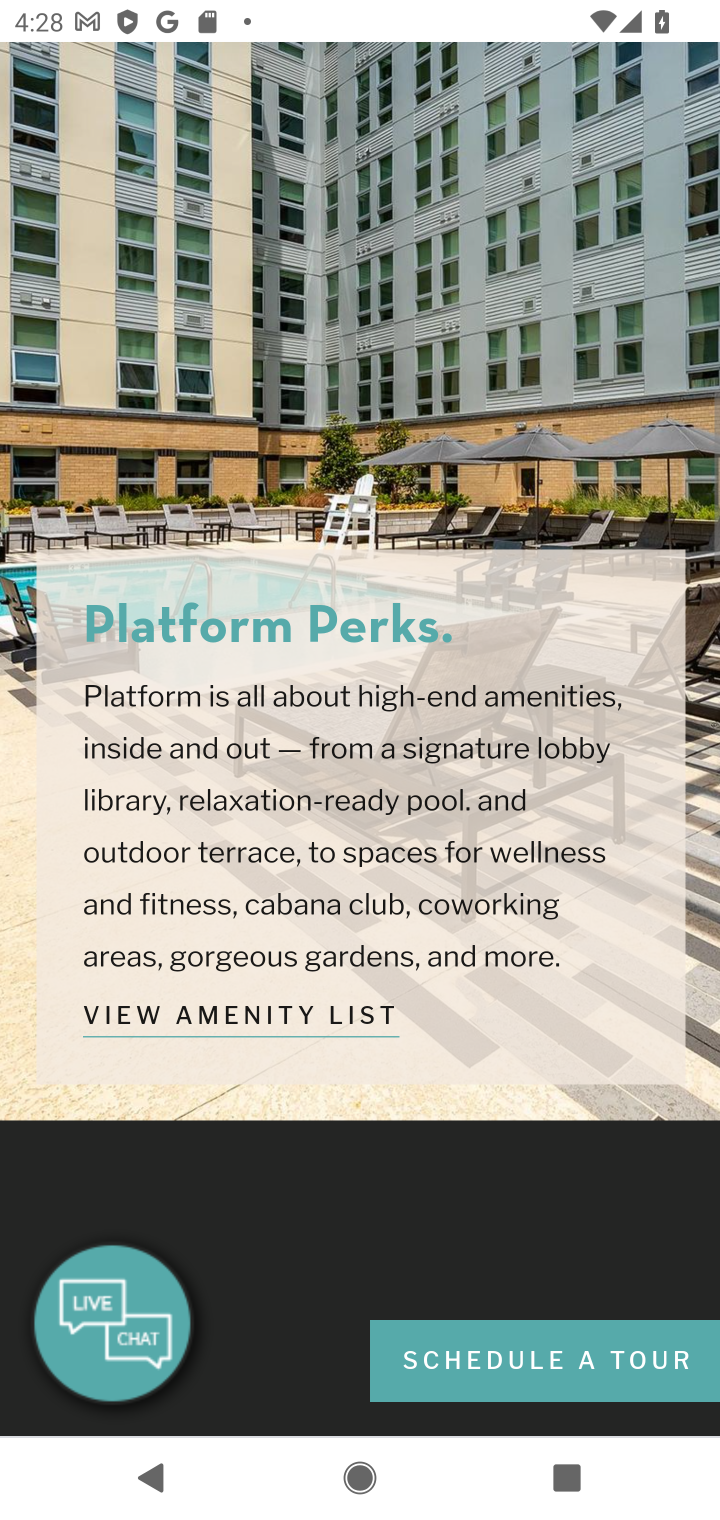
Step 32: drag from (239, 899) to (299, 292)
Your task to perform on an android device: How much does a 3 bedroom apartment rent for in Washington DC? Image 33: 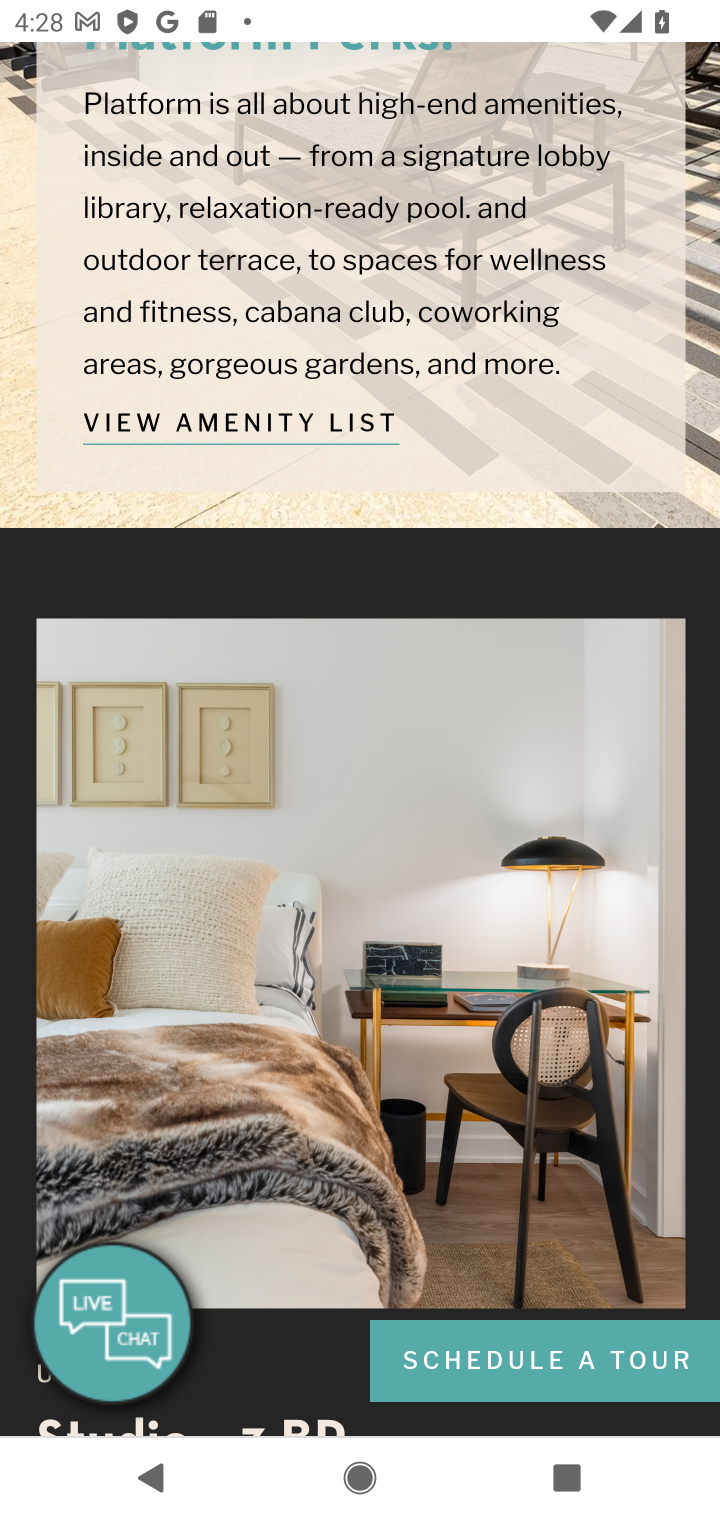
Step 33: drag from (275, 623) to (295, 264)
Your task to perform on an android device: How much does a 3 bedroom apartment rent for in Washington DC? Image 34: 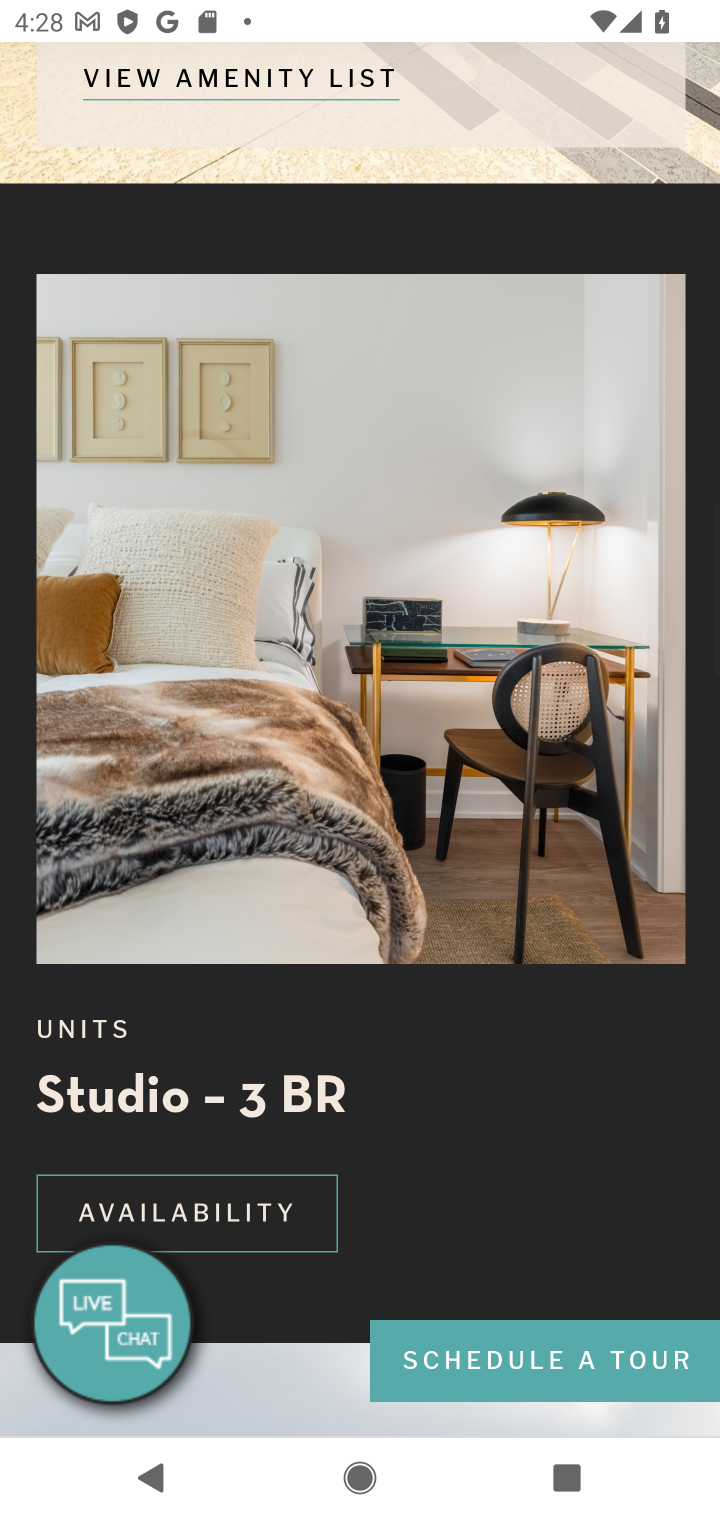
Step 34: drag from (470, 1138) to (472, 476)
Your task to perform on an android device: How much does a 3 bedroom apartment rent for in Washington DC? Image 35: 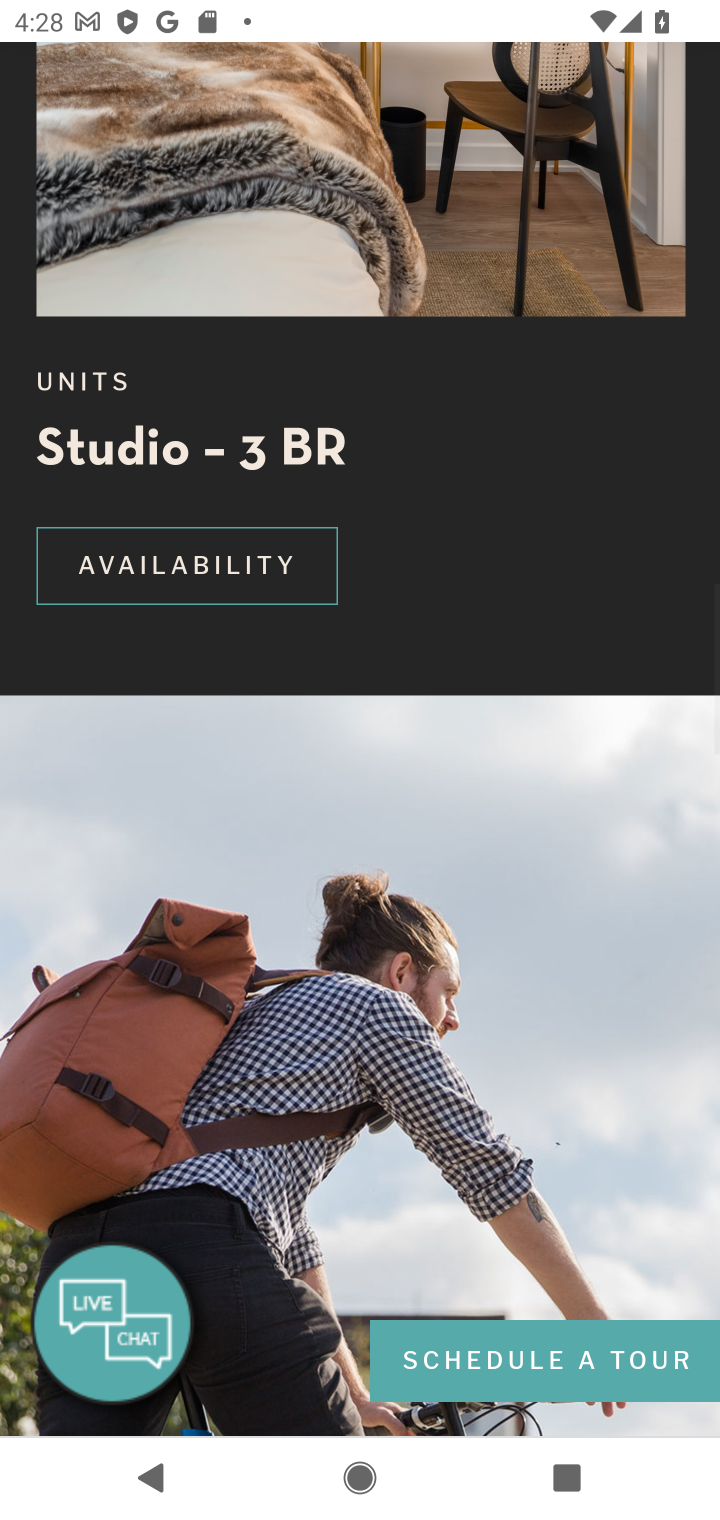
Step 35: drag from (329, 871) to (315, 179)
Your task to perform on an android device: How much does a 3 bedroom apartment rent for in Washington DC? Image 36: 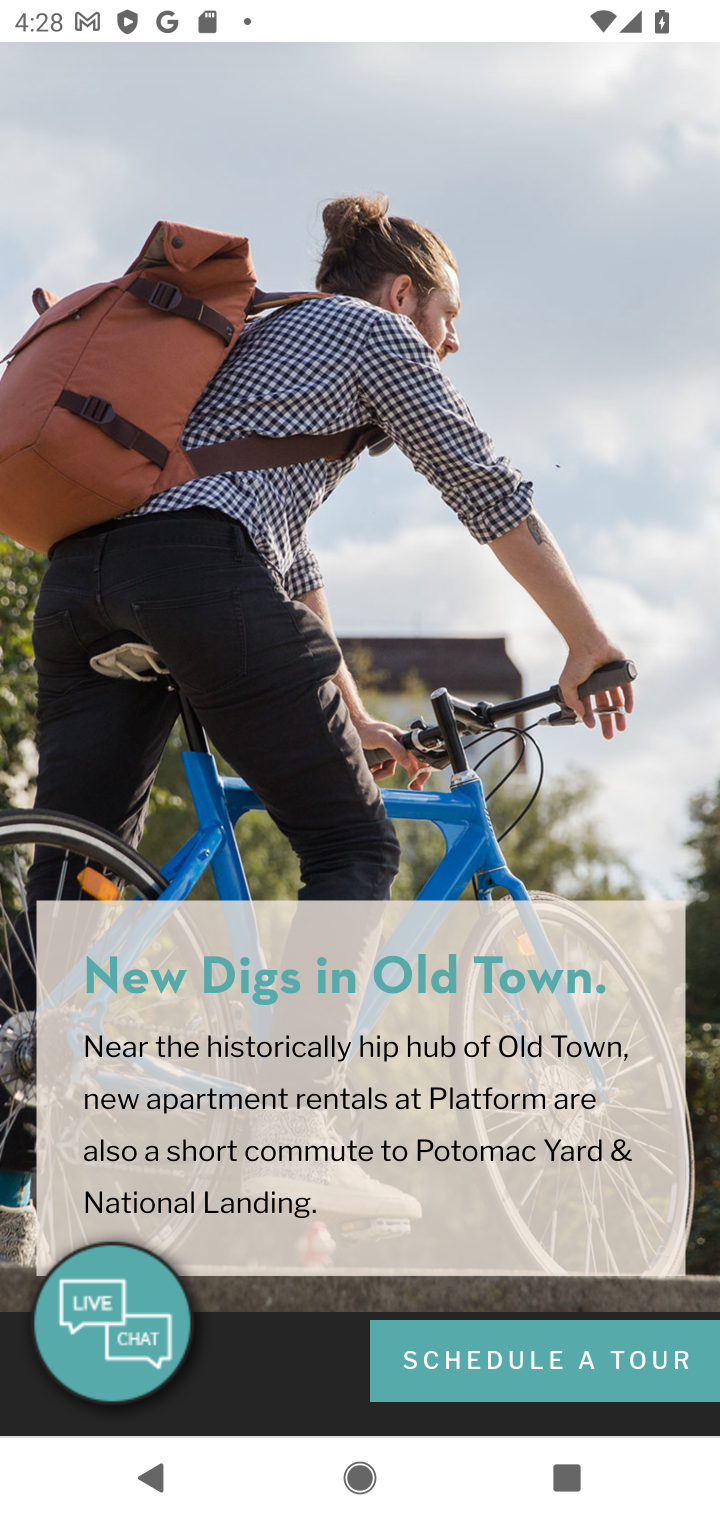
Step 36: press back button
Your task to perform on an android device: How much does a 3 bedroom apartment rent for in Washington DC? Image 37: 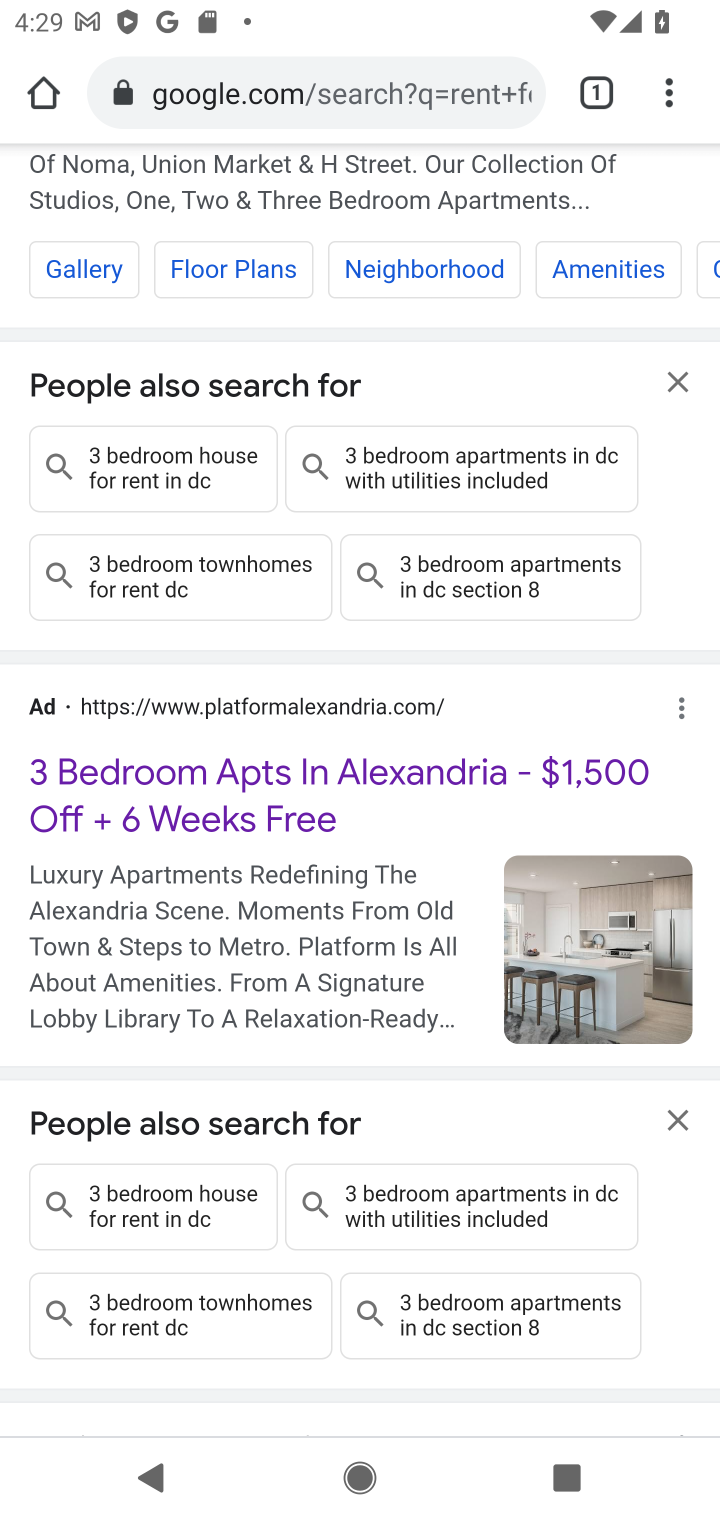
Step 37: drag from (247, 979) to (268, 642)
Your task to perform on an android device: How much does a 3 bedroom apartment rent for in Washington DC? Image 38: 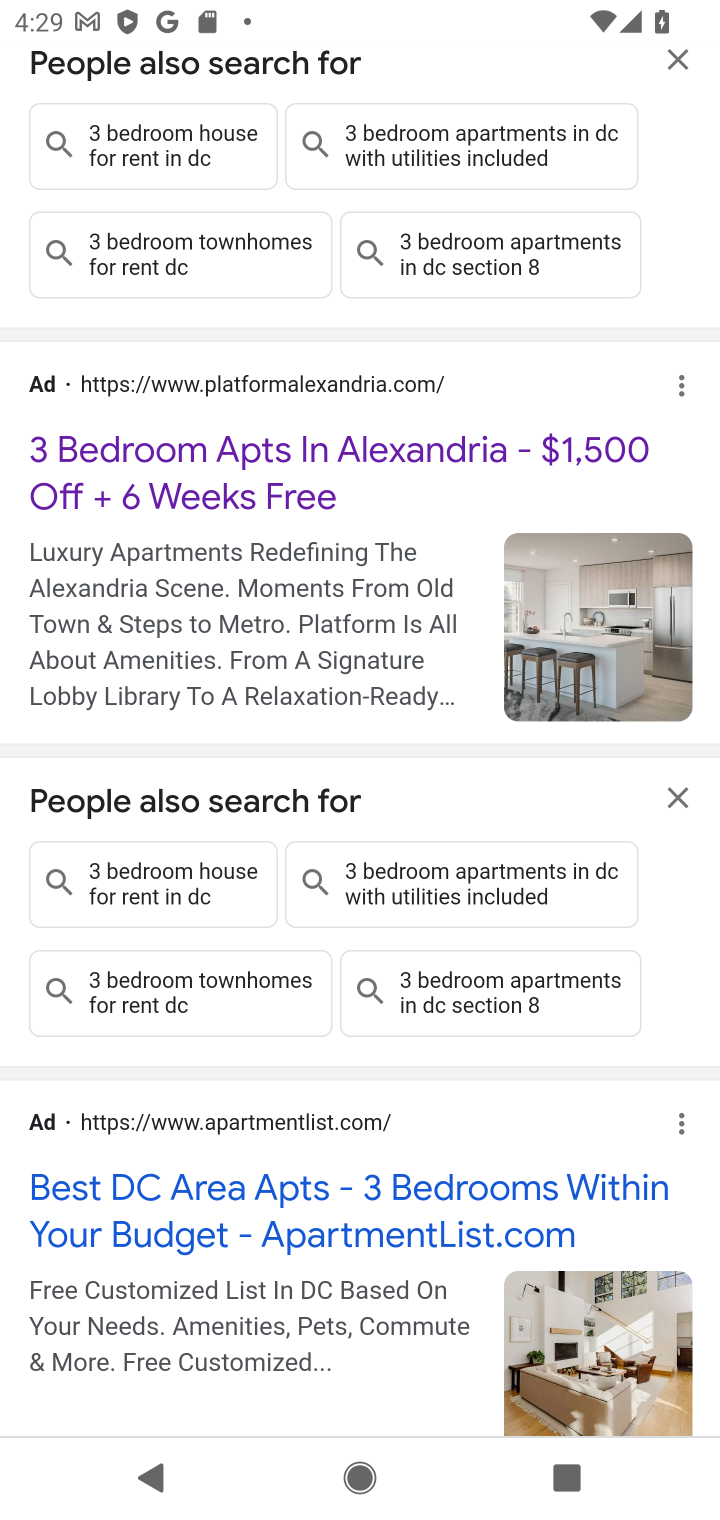
Step 38: click (196, 1206)
Your task to perform on an android device: How much does a 3 bedroom apartment rent for in Washington DC? Image 39: 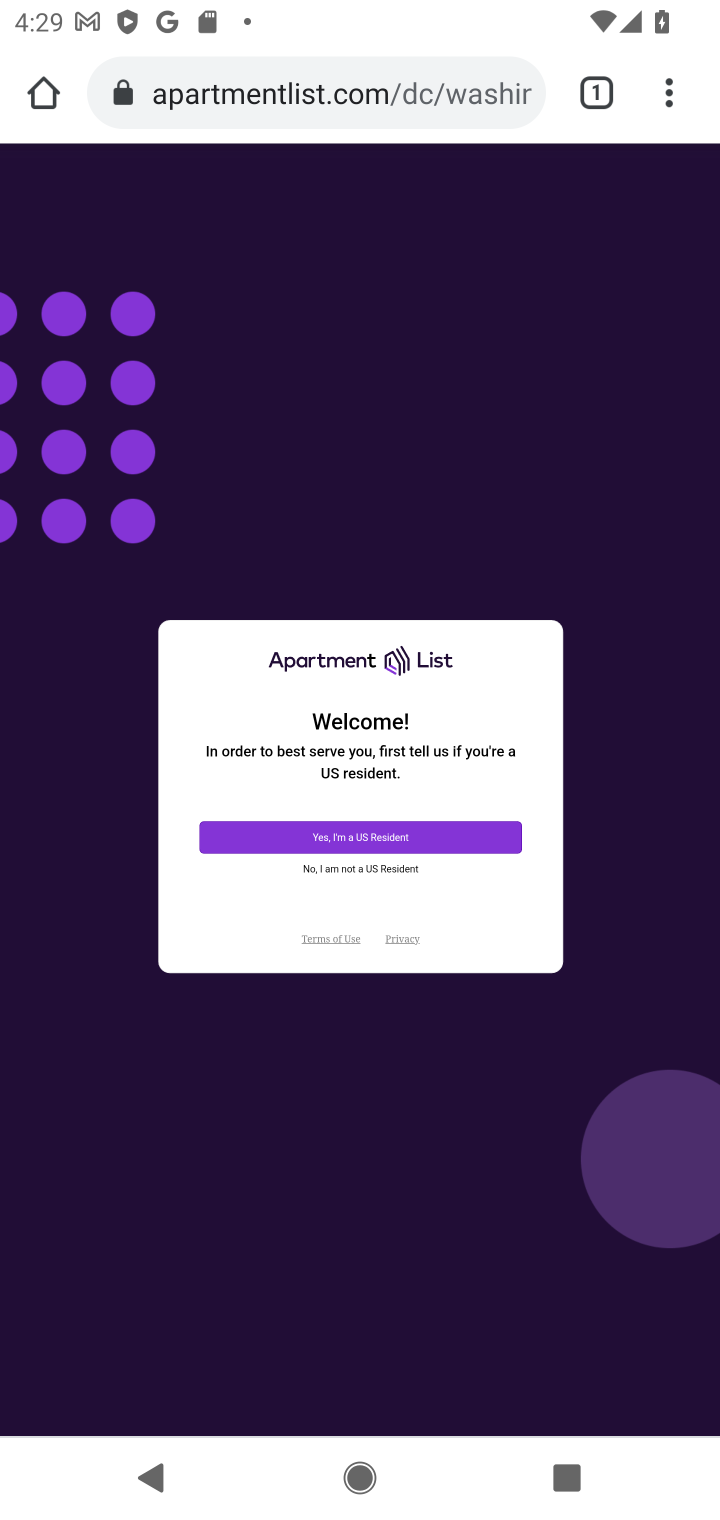
Step 39: drag from (630, 850) to (634, 340)
Your task to perform on an android device: How much does a 3 bedroom apartment rent for in Washington DC? Image 40: 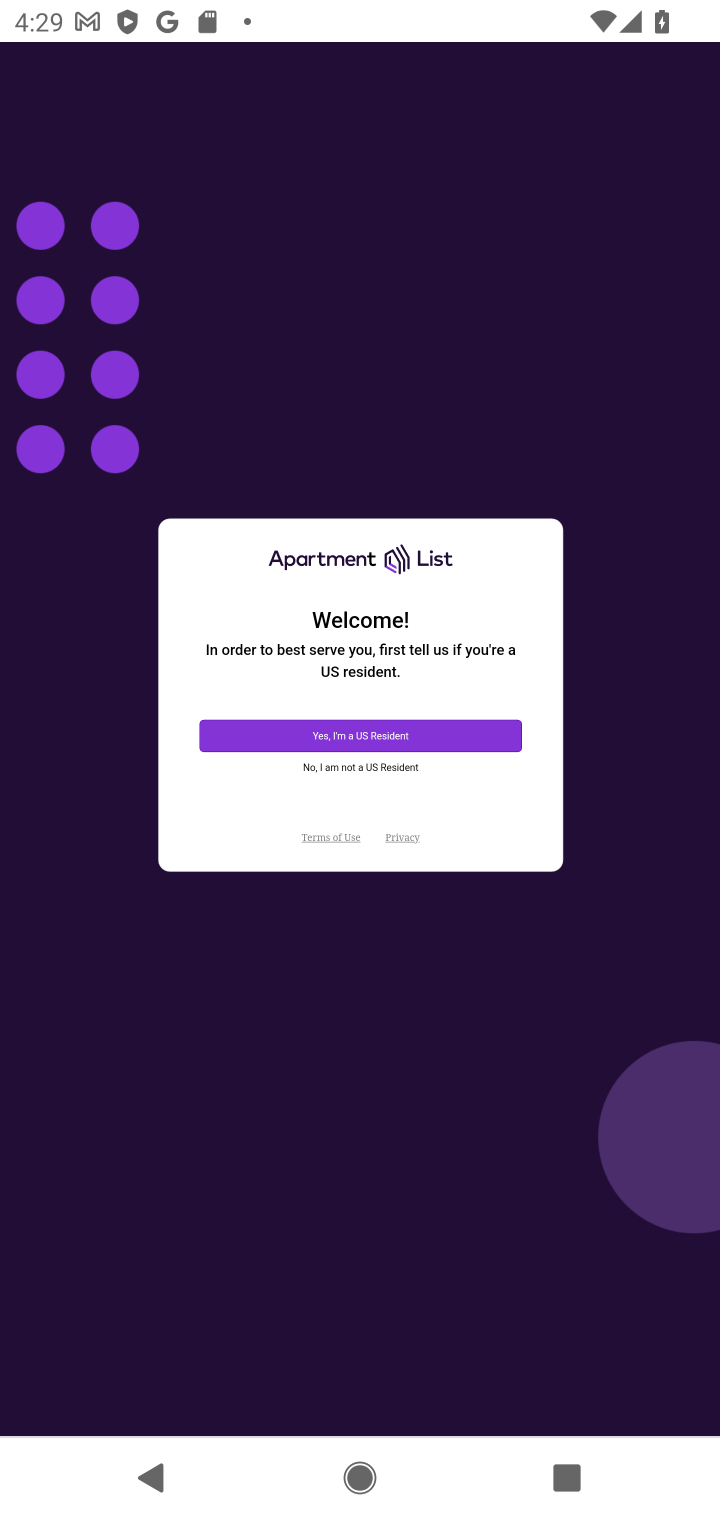
Step 40: drag from (302, 1075) to (261, 369)
Your task to perform on an android device: How much does a 3 bedroom apartment rent for in Washington DC? Image 41: 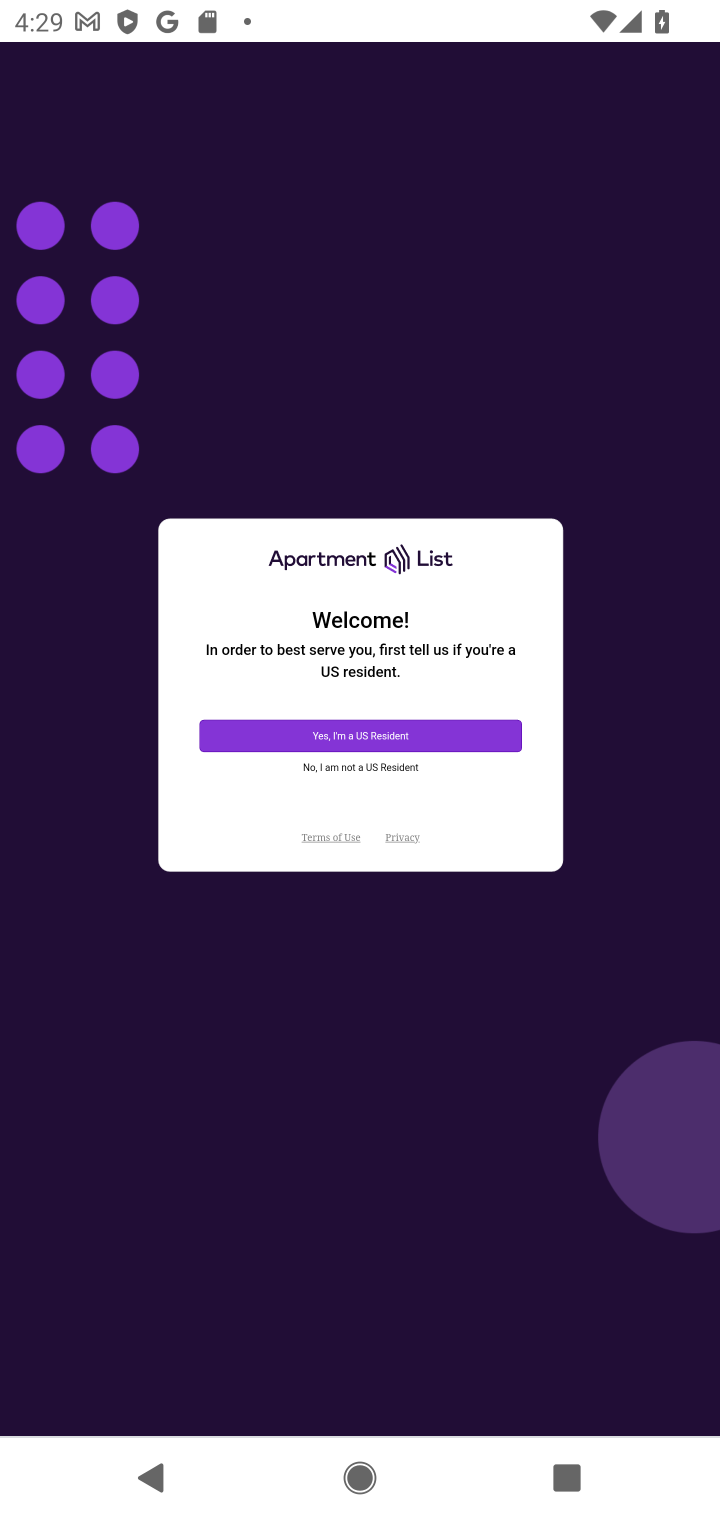
Step 41: drag from (133, 933) to (115, 299)
Your task to perform on an android device: How much does a 3 bedroom apartment rent for in Washington DC? Image 42: 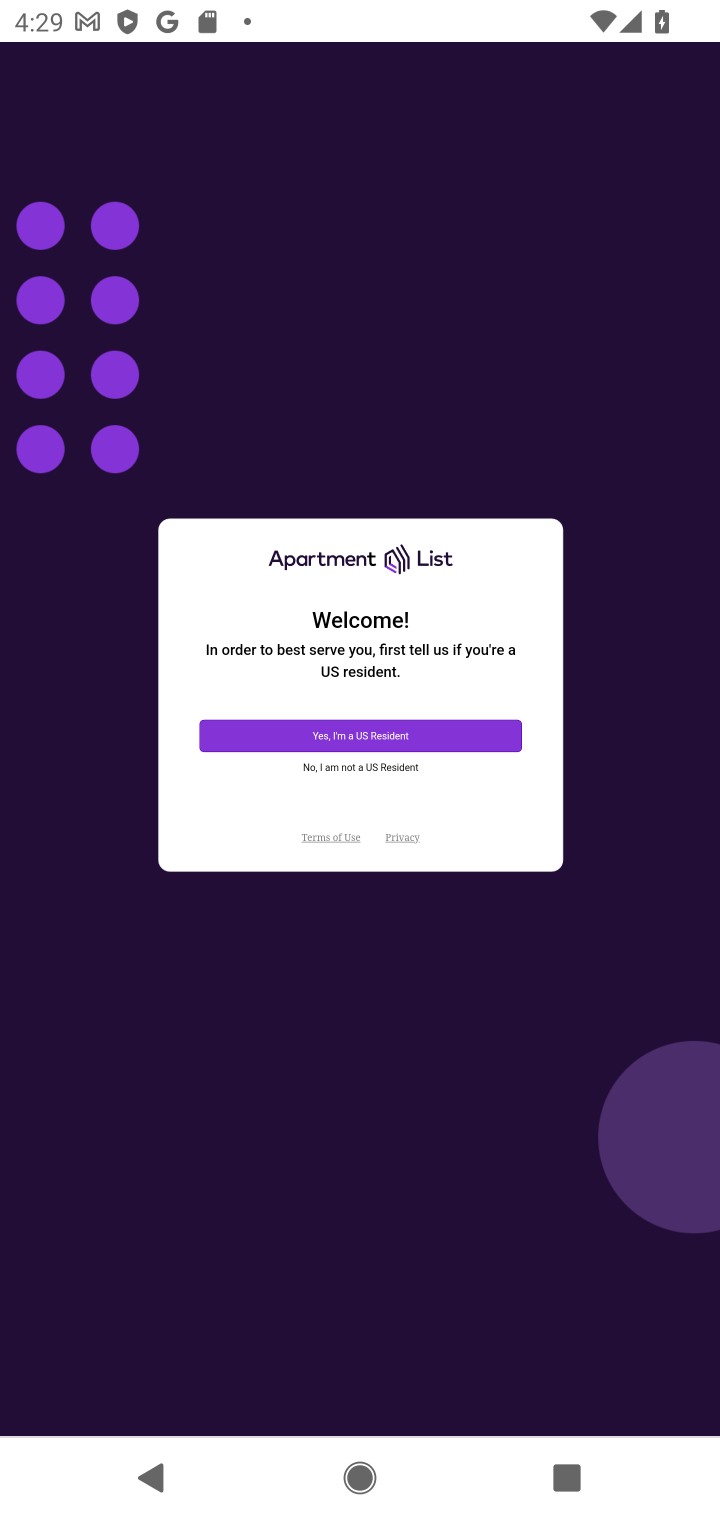
Step 42: drag from (544, 356) to (532, 1271)
Your task to perform on an android device: How much does a 3 bedroom apartment rent for in Washington DC? Image 43: 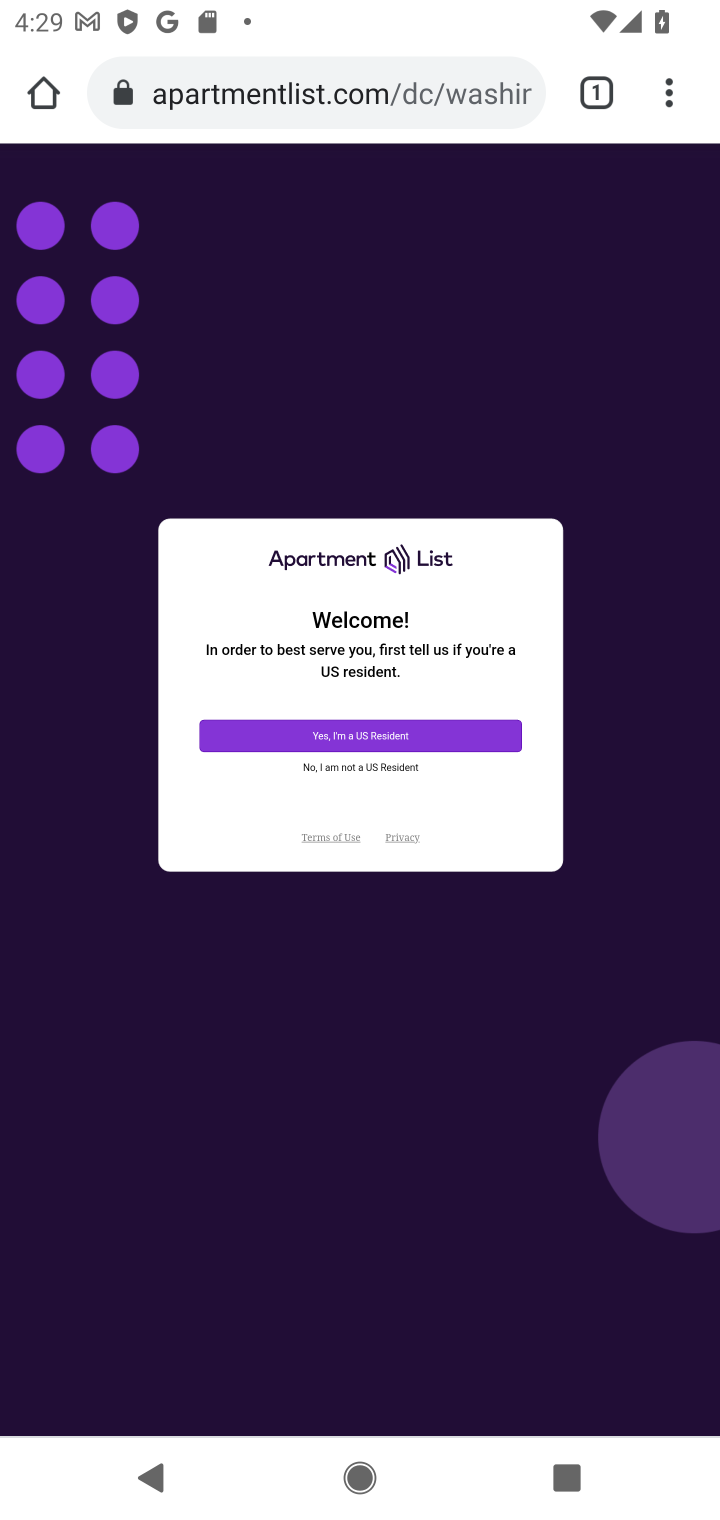
Step 43: press back button
Your task to perform on an android device: How much does a 3 bedroom apartment rent for in Washington DC? Image 44: 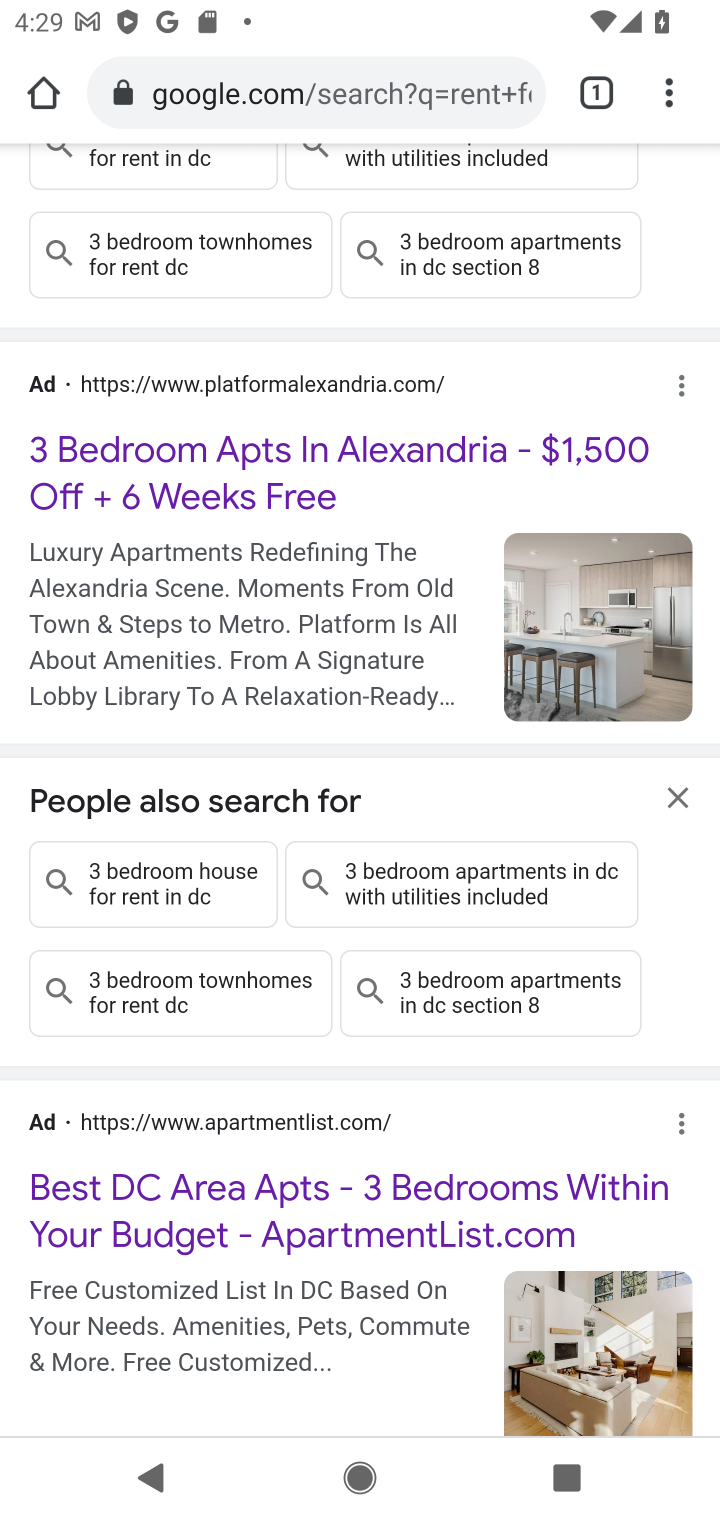
Step 44: click (139, 896)
Your task to perform on an android device: How much does a 3 bedroom apartment rent for in Washington DC? Image 45: 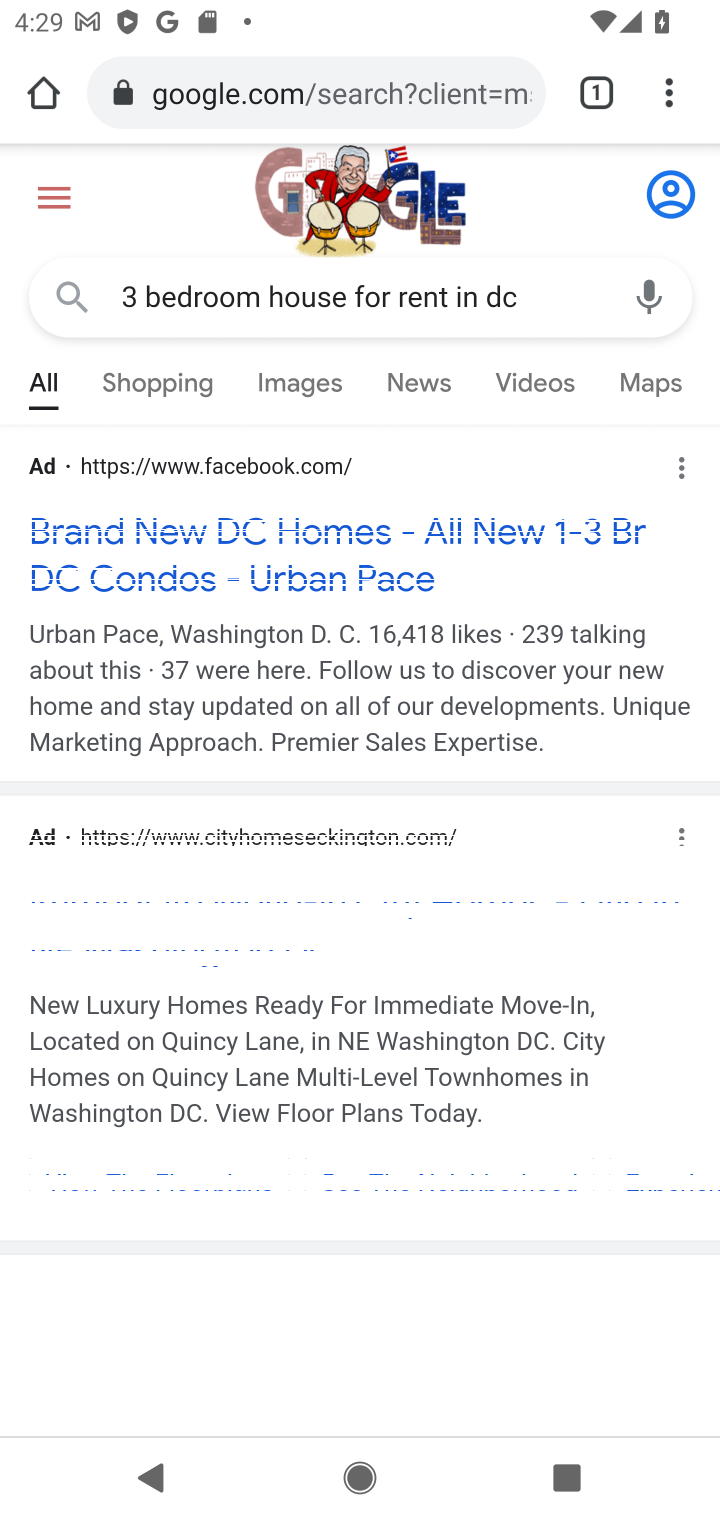
Step 45: click (175, 387)
Your task to perform on an android device: How much does a 3 bedroom apartment rent for in Washington DC? Image 46: 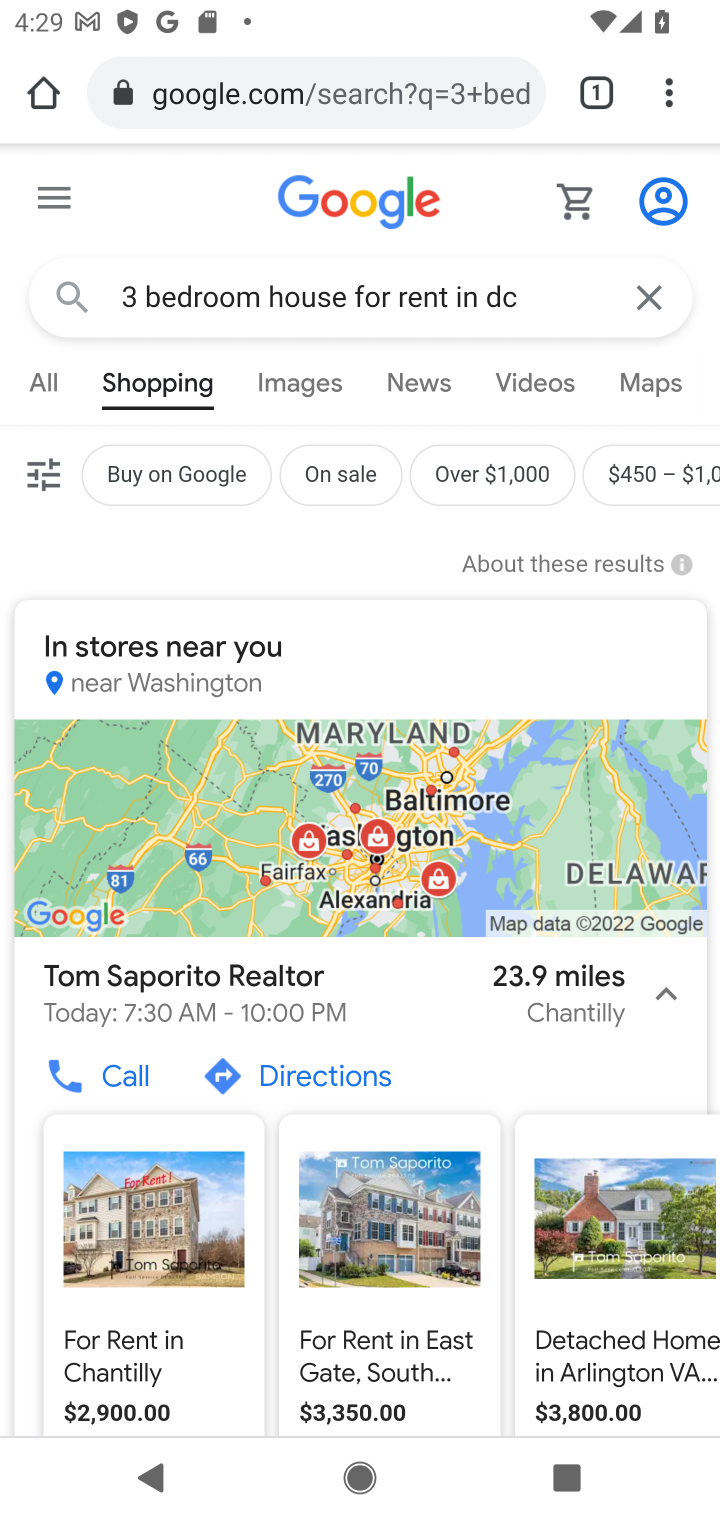
Step 46: task complete